Your task to perform on an android device: What's on the menu at Red Lobster? Image 0: 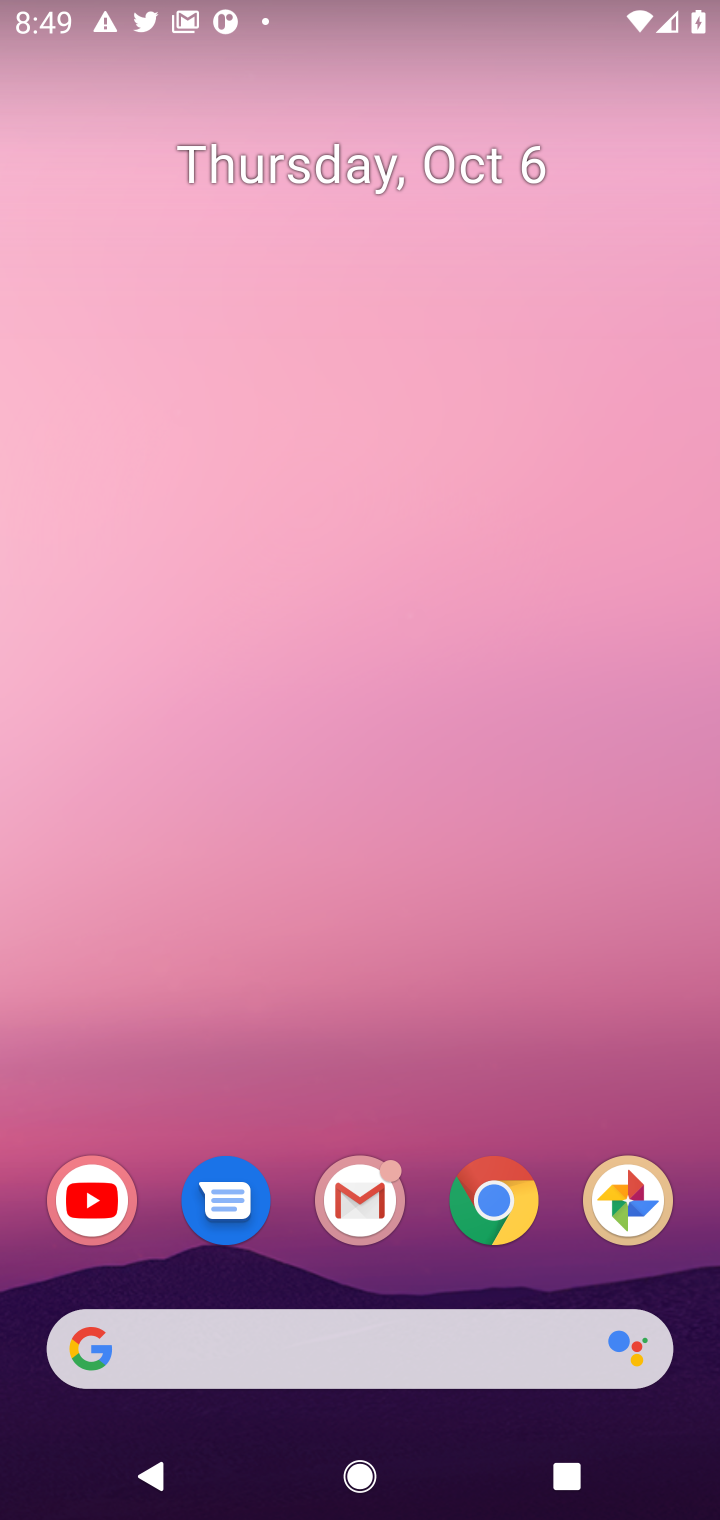
Step 0: click (501, 1203)
Your task to perform on an android device: What's on the menu at Red Lobster? Image 1: 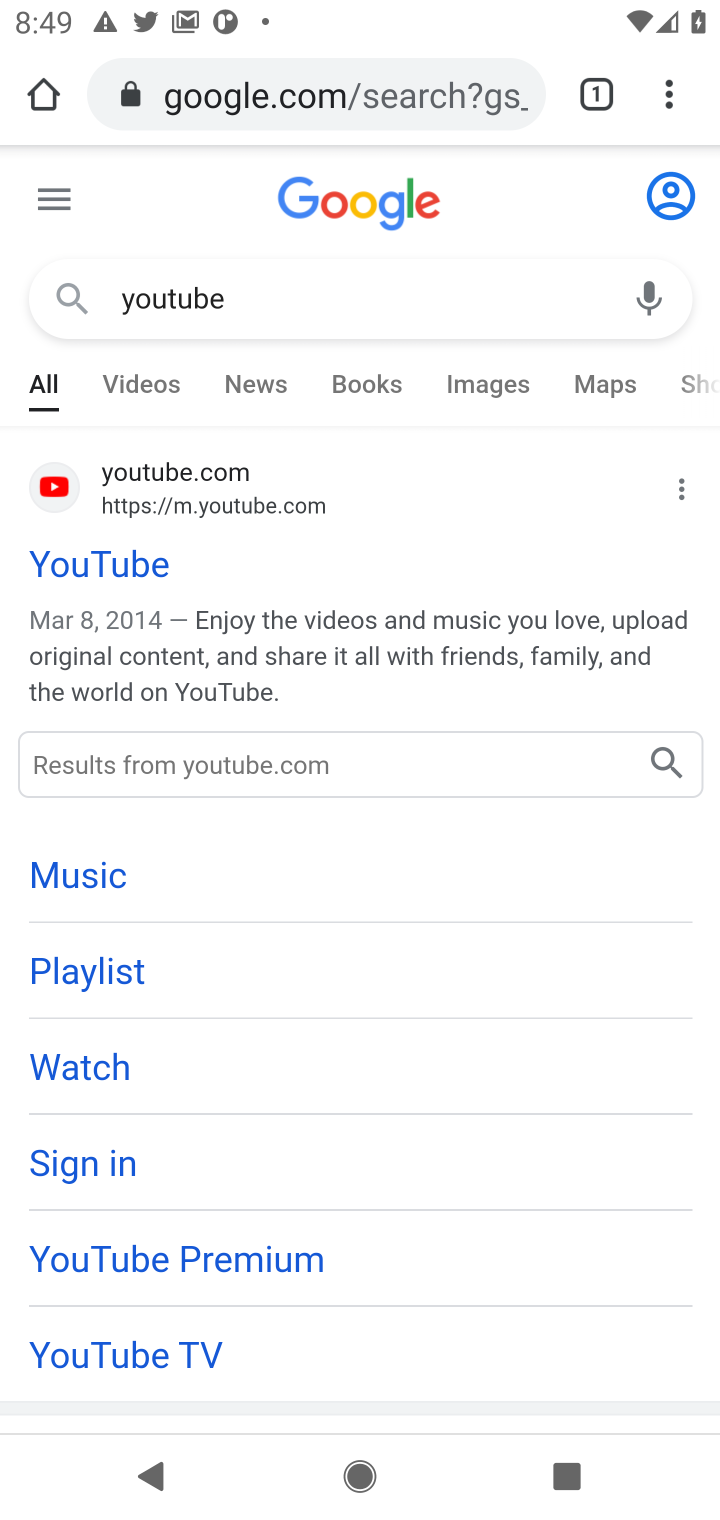
Step 1: click (382, 90)
Your task to perform on an android device: What's on the menu at Red Lobster? Image 2: 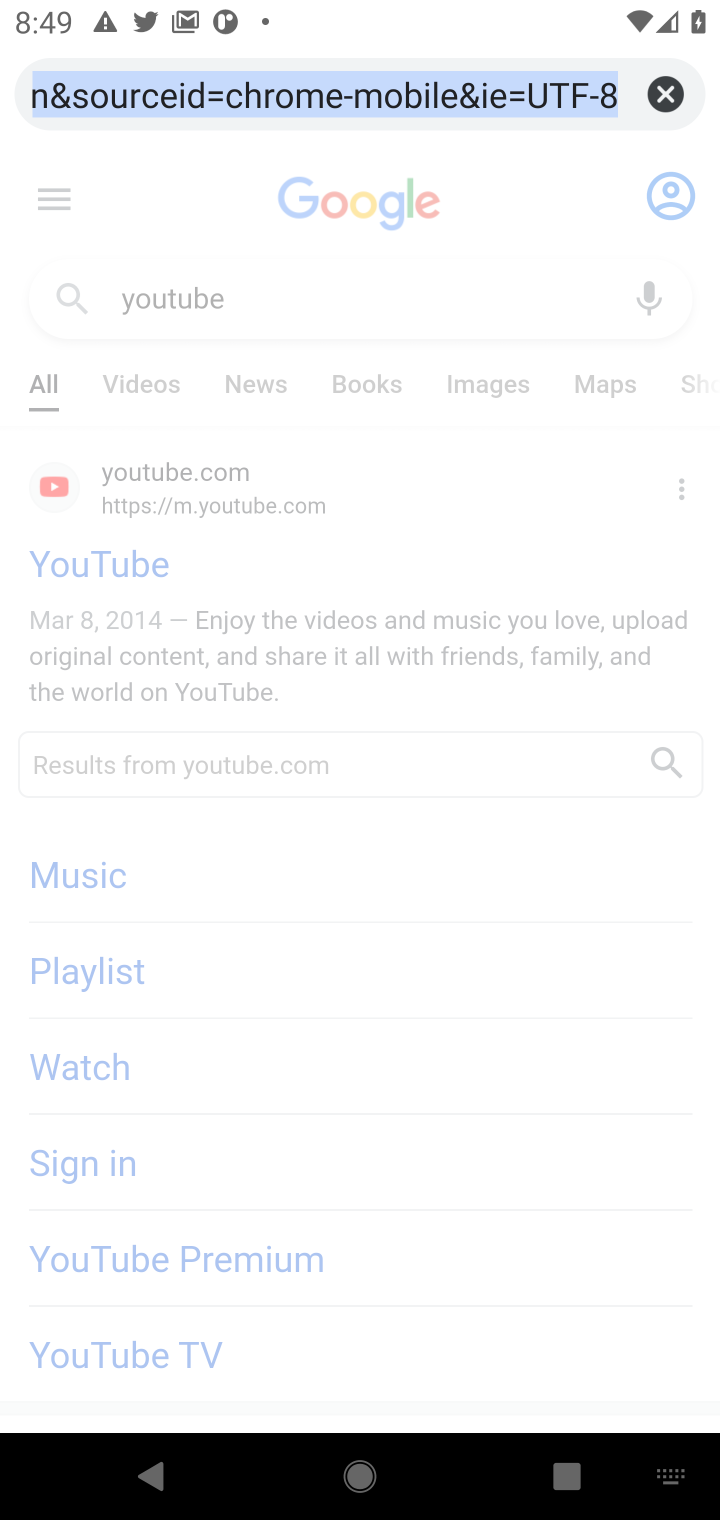
Step 2: type "red lobster"
Your task to perform on an android device: What's on the menu at Red Lobster? Image 3: 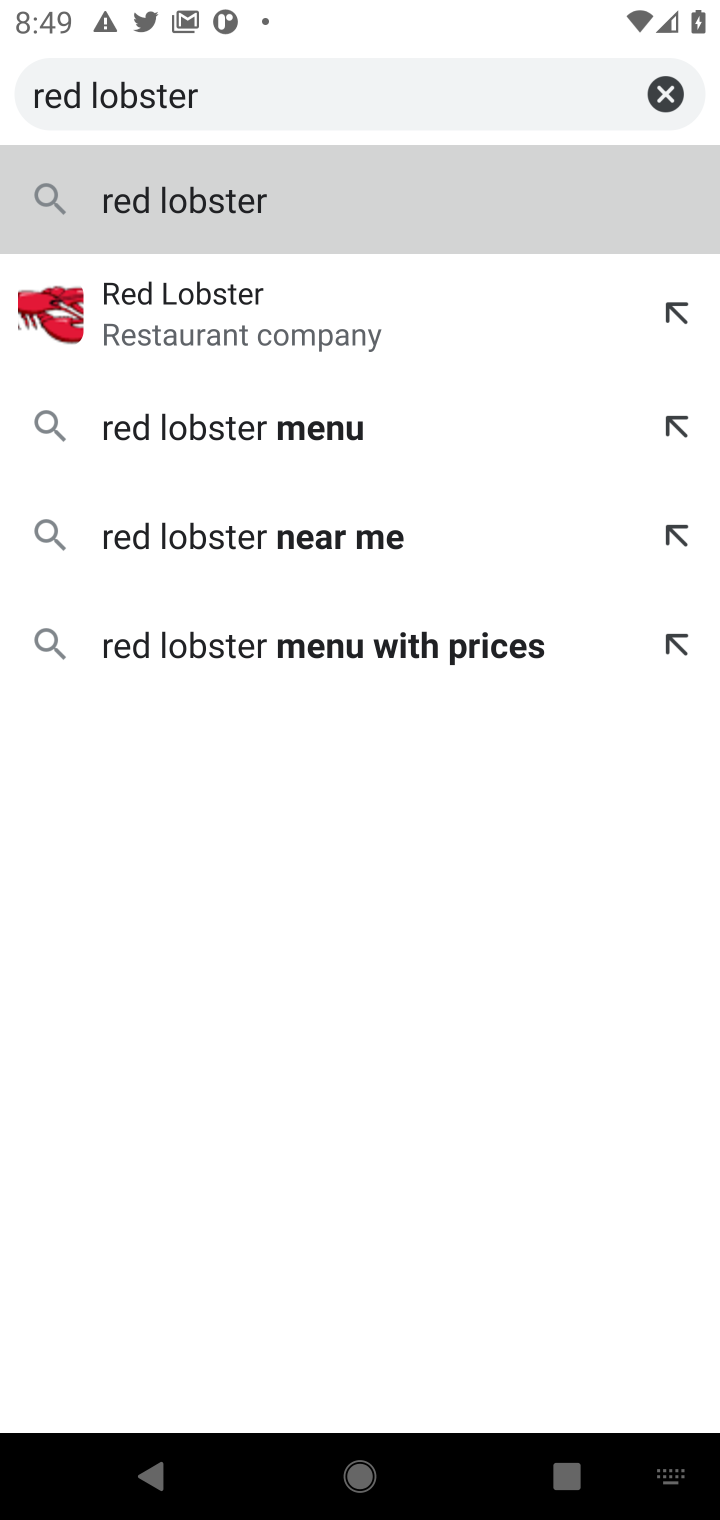
Step 3: click (269, 306)
Your task to perform on an android device: What's on the menu at Red Lobster? Image 4: 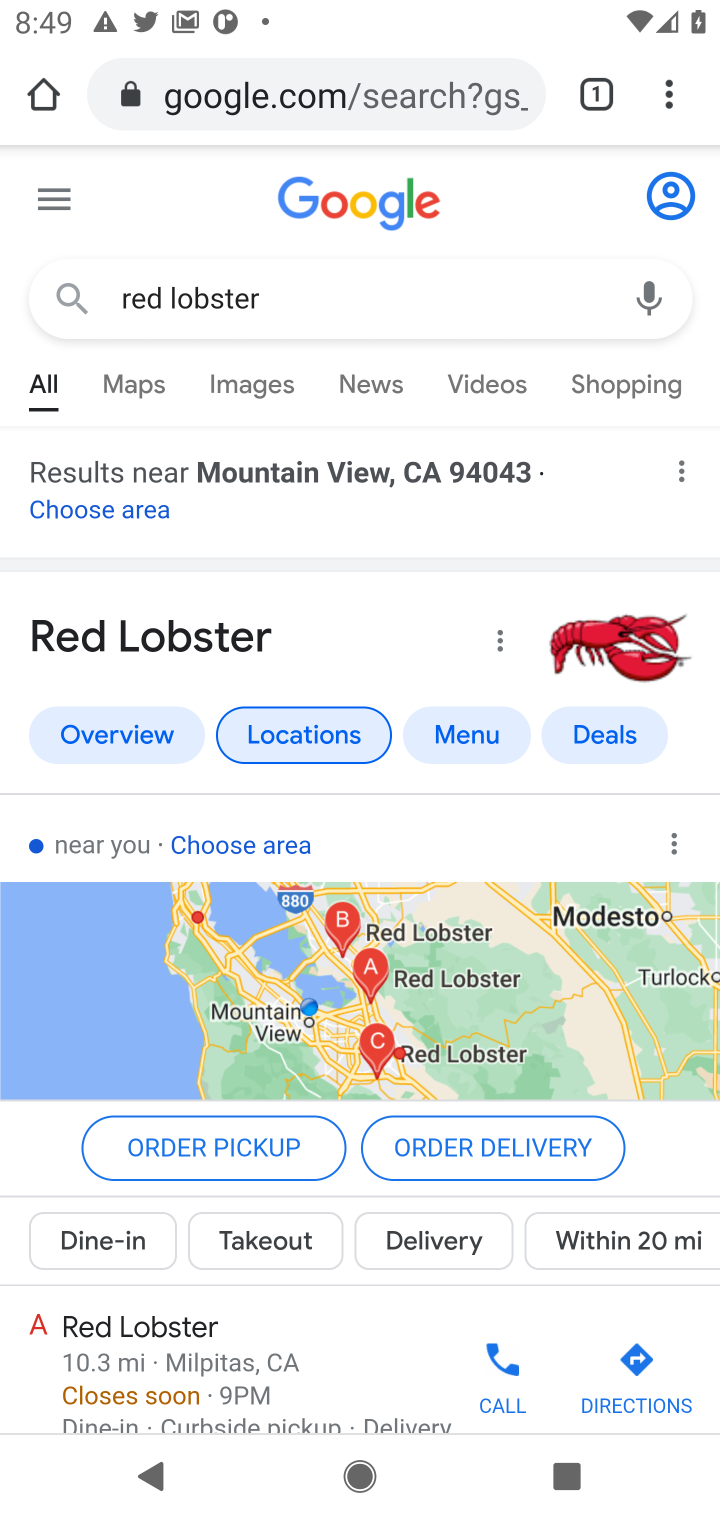
Step 4: click (191, 636)
Your task to perform on an android device: What's on the menu at Red Lobster? Image 5: 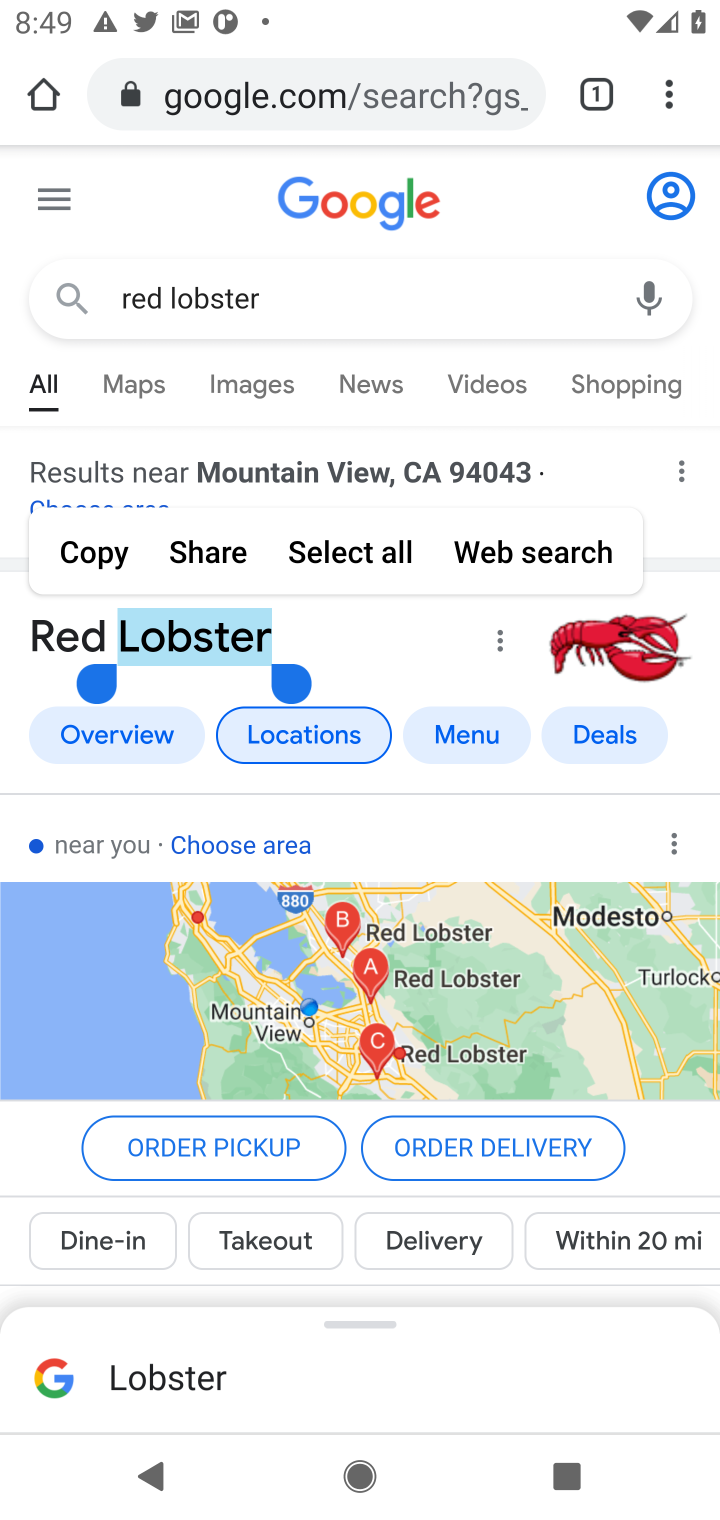
Step 5: click (452, 727)
Your task to perform on an android device: What's on the menu at Red Lobster? Image 6: 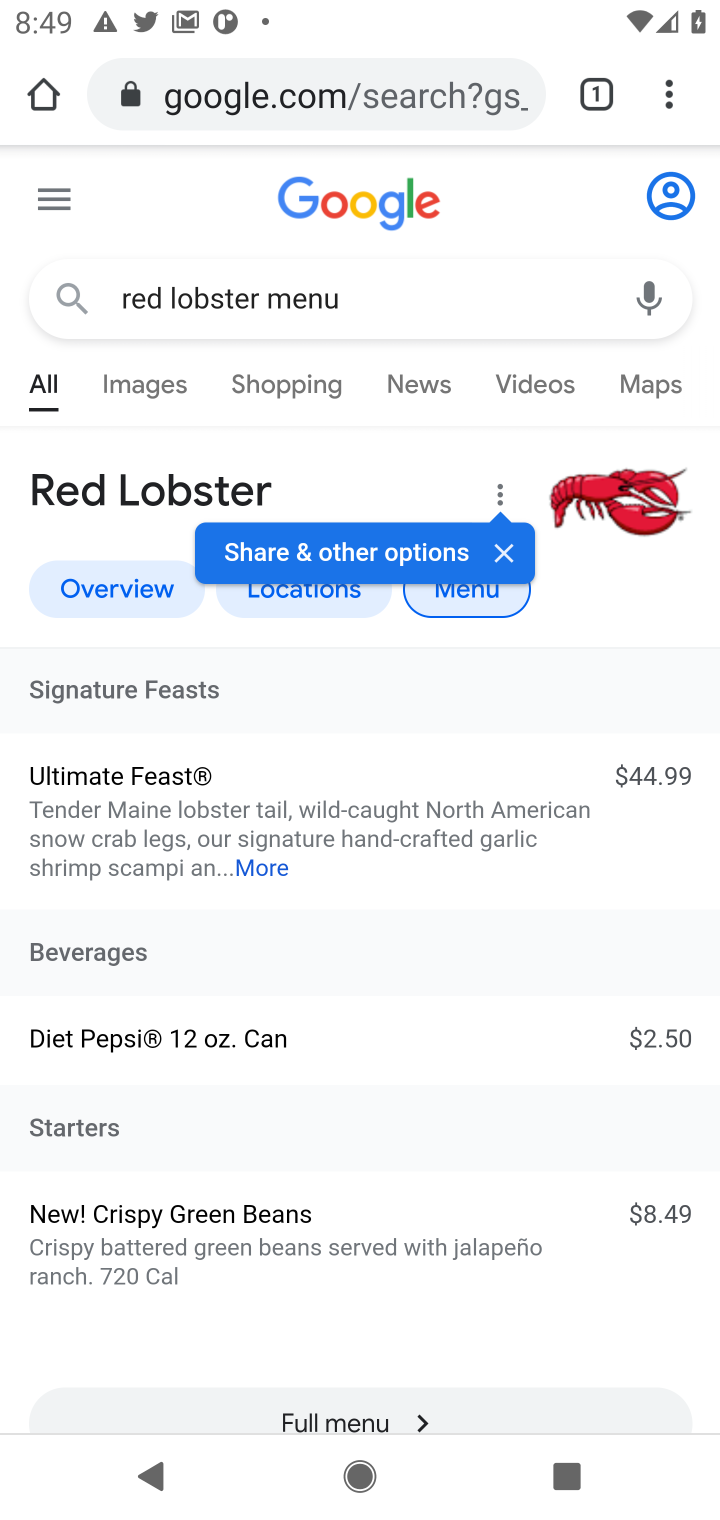
Step 6: drag from (221, 1140) to (204, 780)
Your task to perform on an android device: What's on the menu at Red Lobster? Image 7: 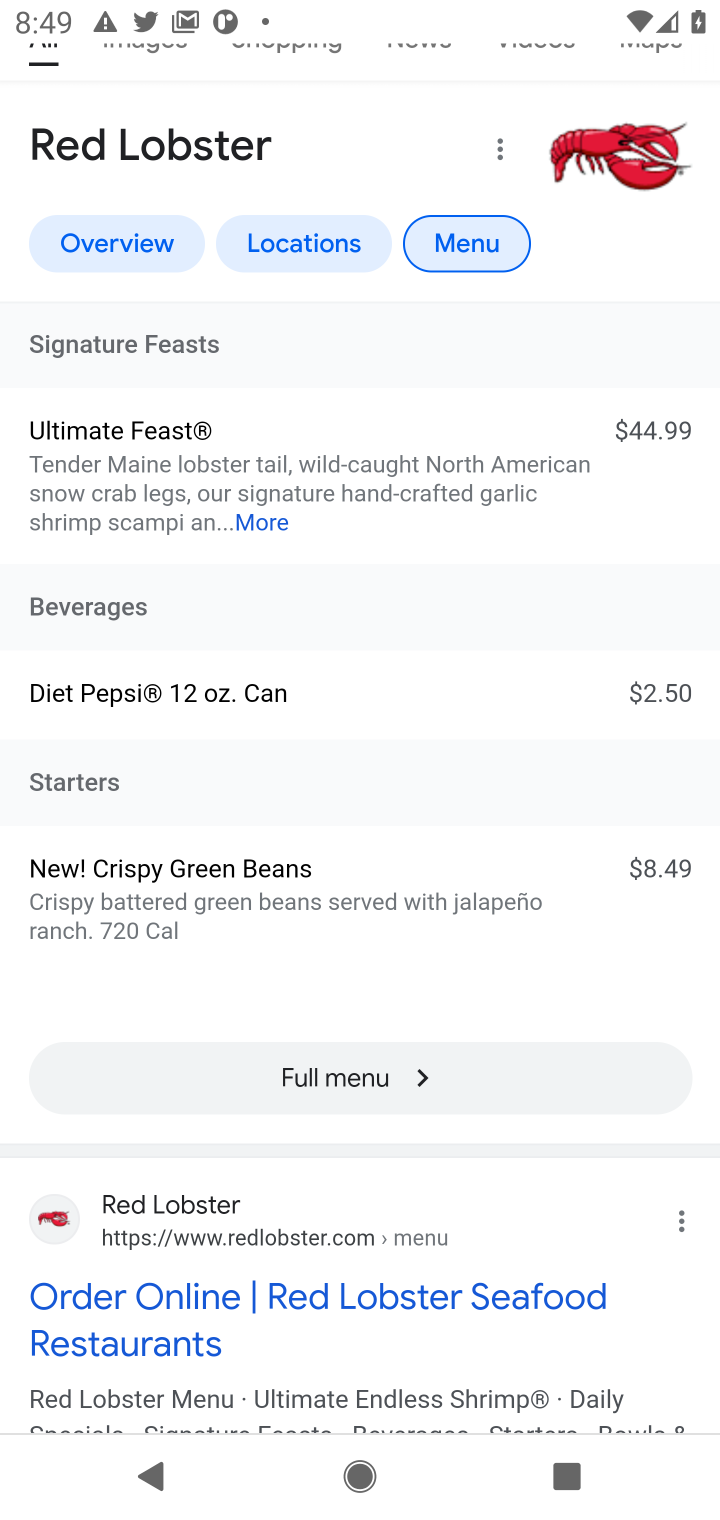
Step 7: click (468, 239)
Your task to perform on an android device: What's on the menu at Red Lobster? Image 8: 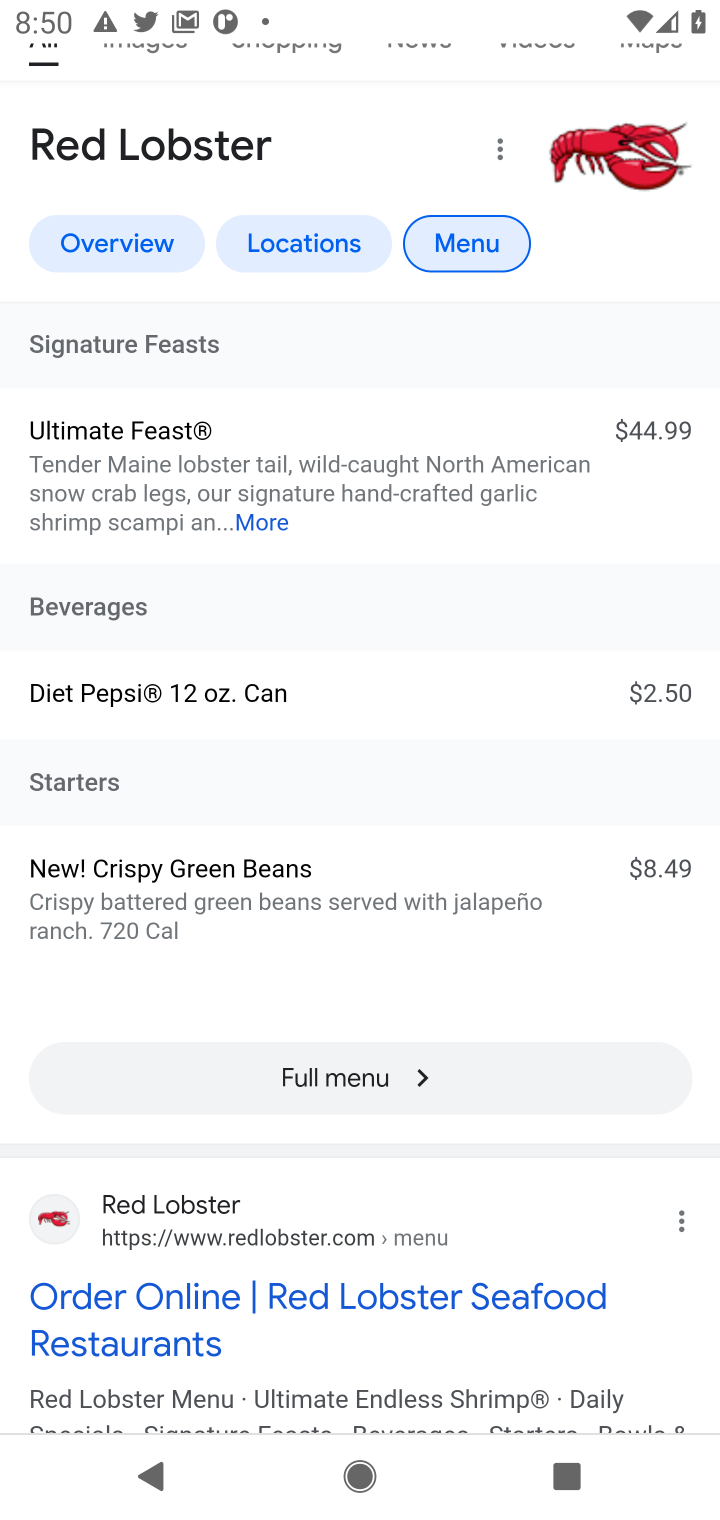
Step 8: click (458, 237)
Your task to perform on an android device: What's on the menu at Red Lobster? Image 9: 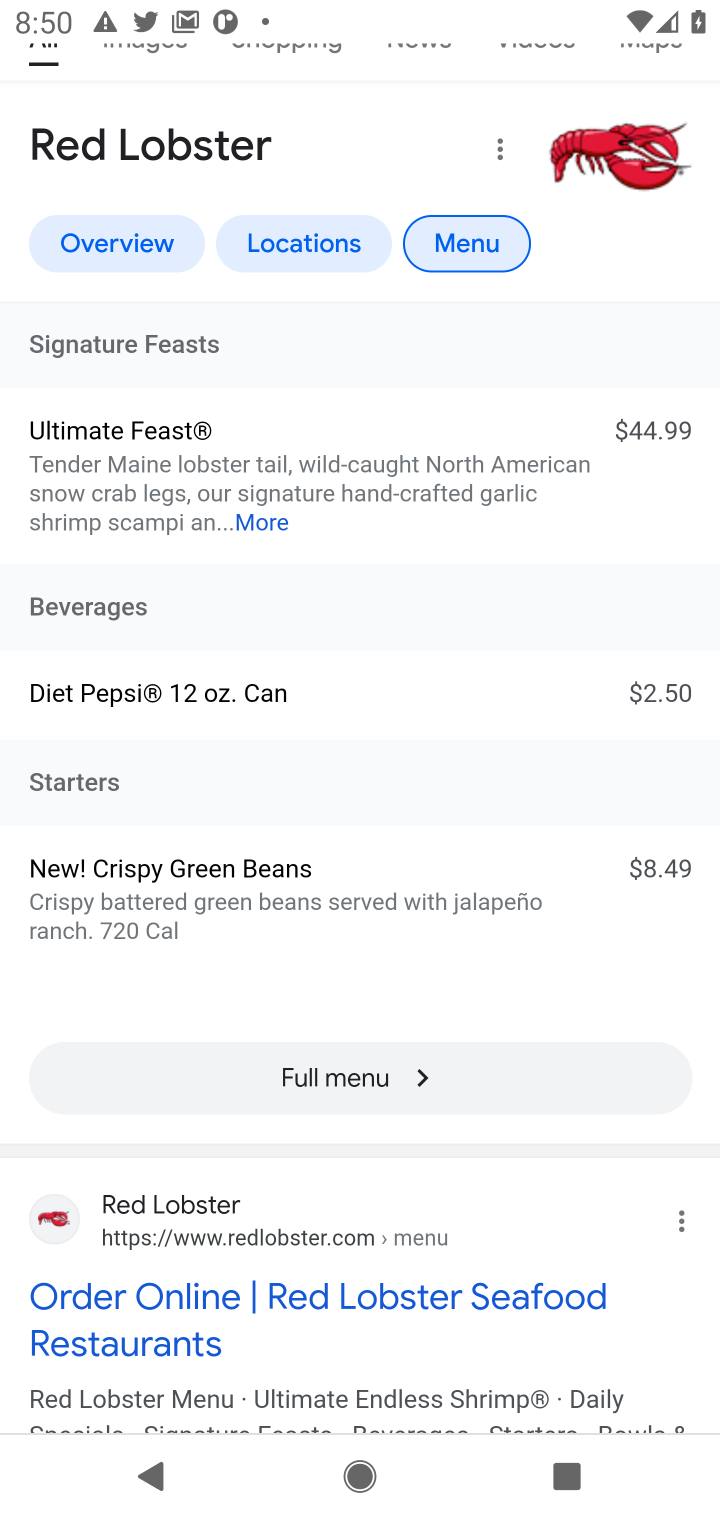
Step 9: click (453, 241)
Your task to perform on an android device: What's on the menu at Red Lobster? Image 10: 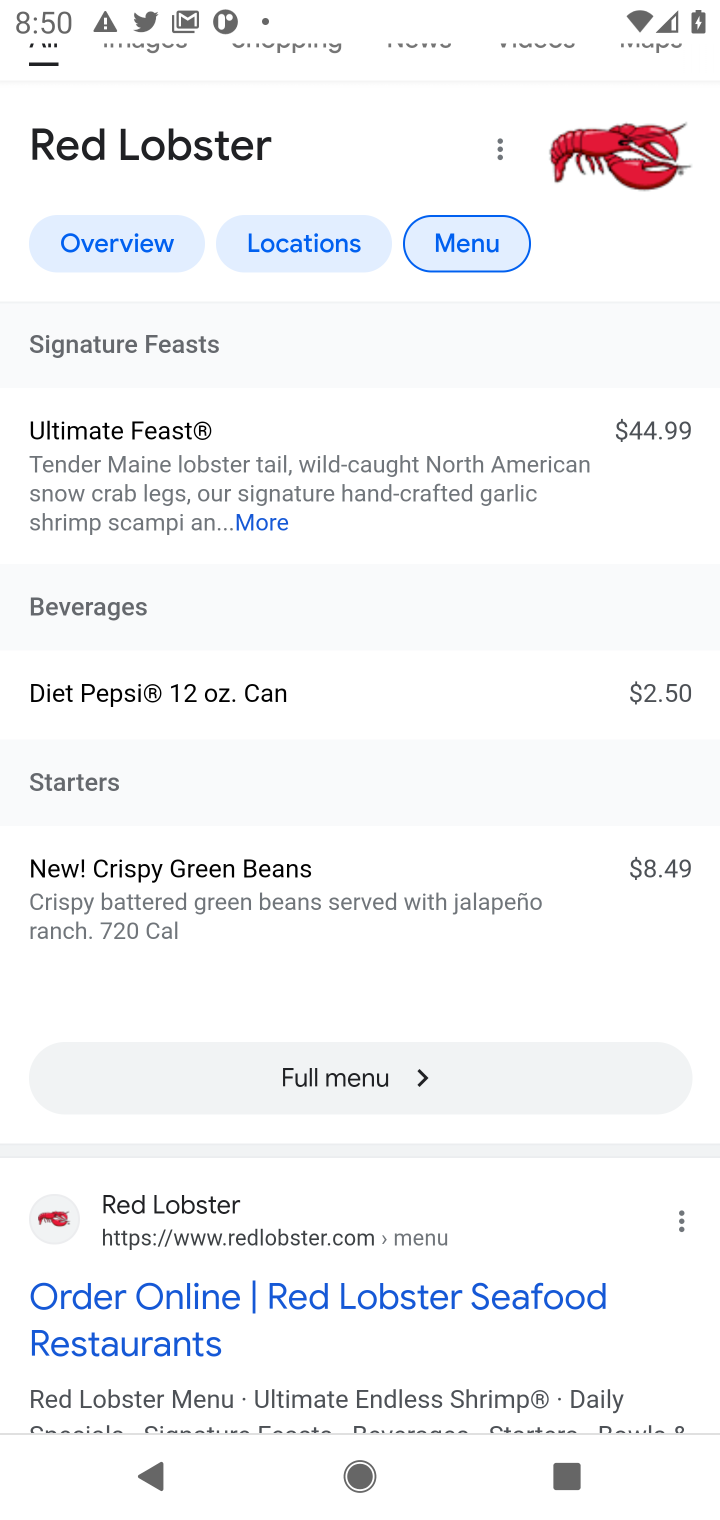
Step 10: drag from (541, 1127) to (557, 594)
Your task to perform on an android device: What's on the menu at Red Lobster? Image 11: 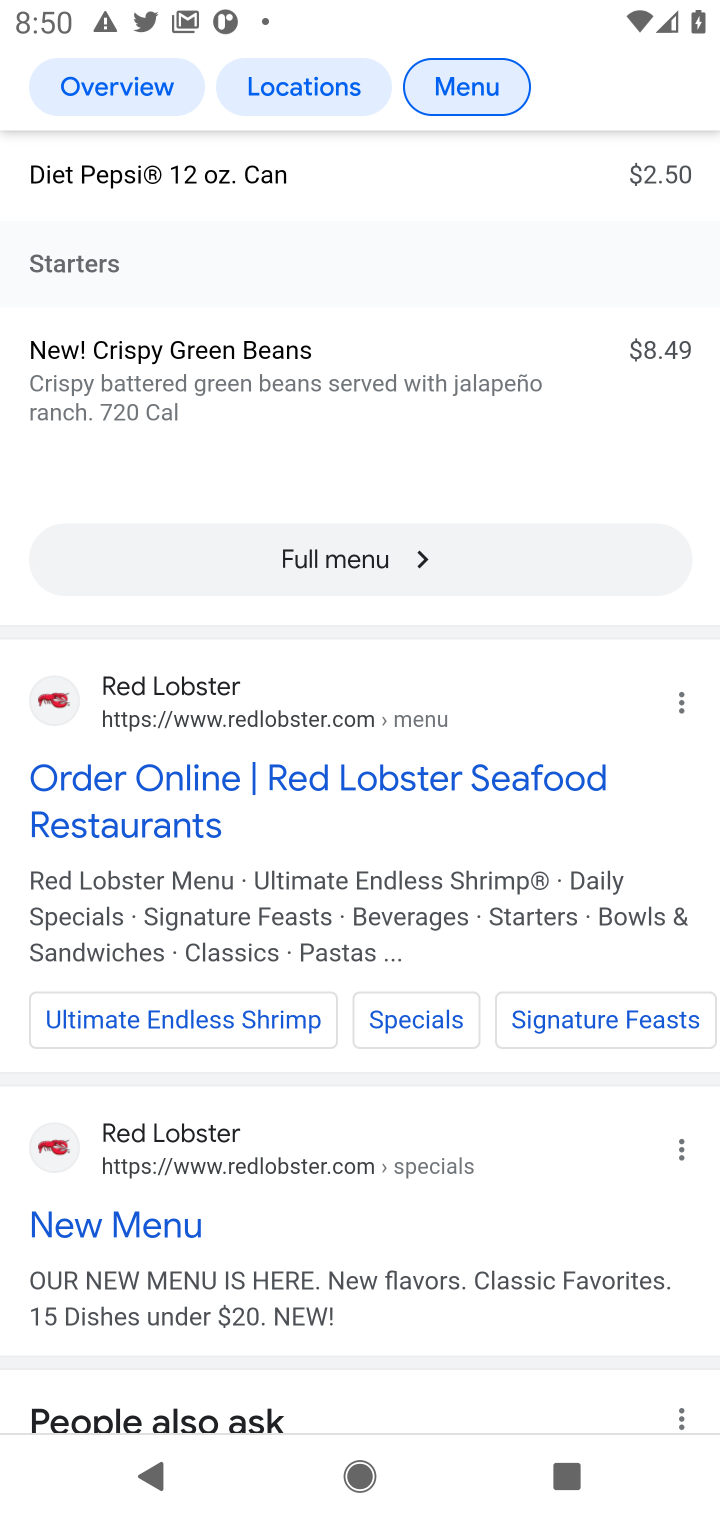
Step 11: click (356, 1012)
Your task to perform on an android device: What's on the menu at Red Lobster? Image 12: 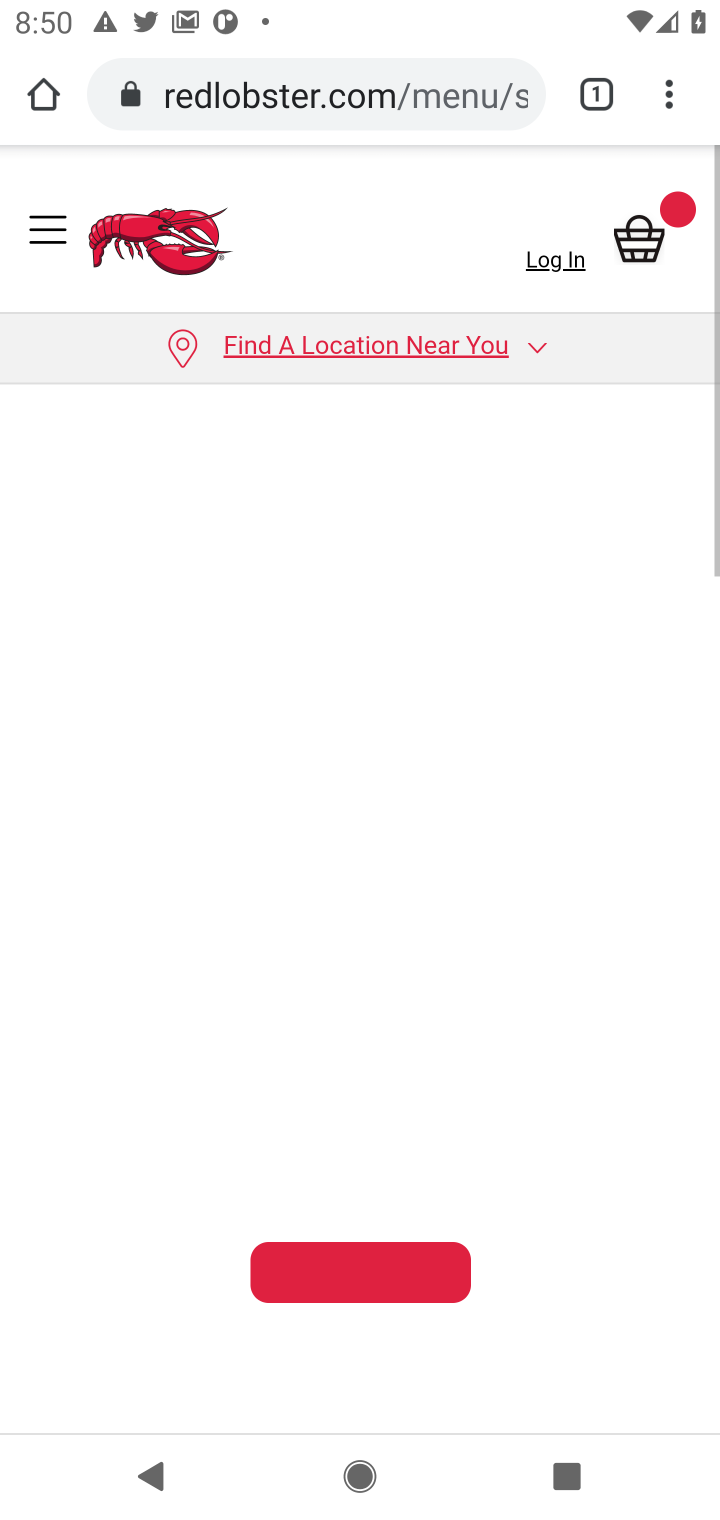
Step 12: click (70, 1227)
Your task to perform on an android device: What's on the menu at Red Lobster? Image 13: 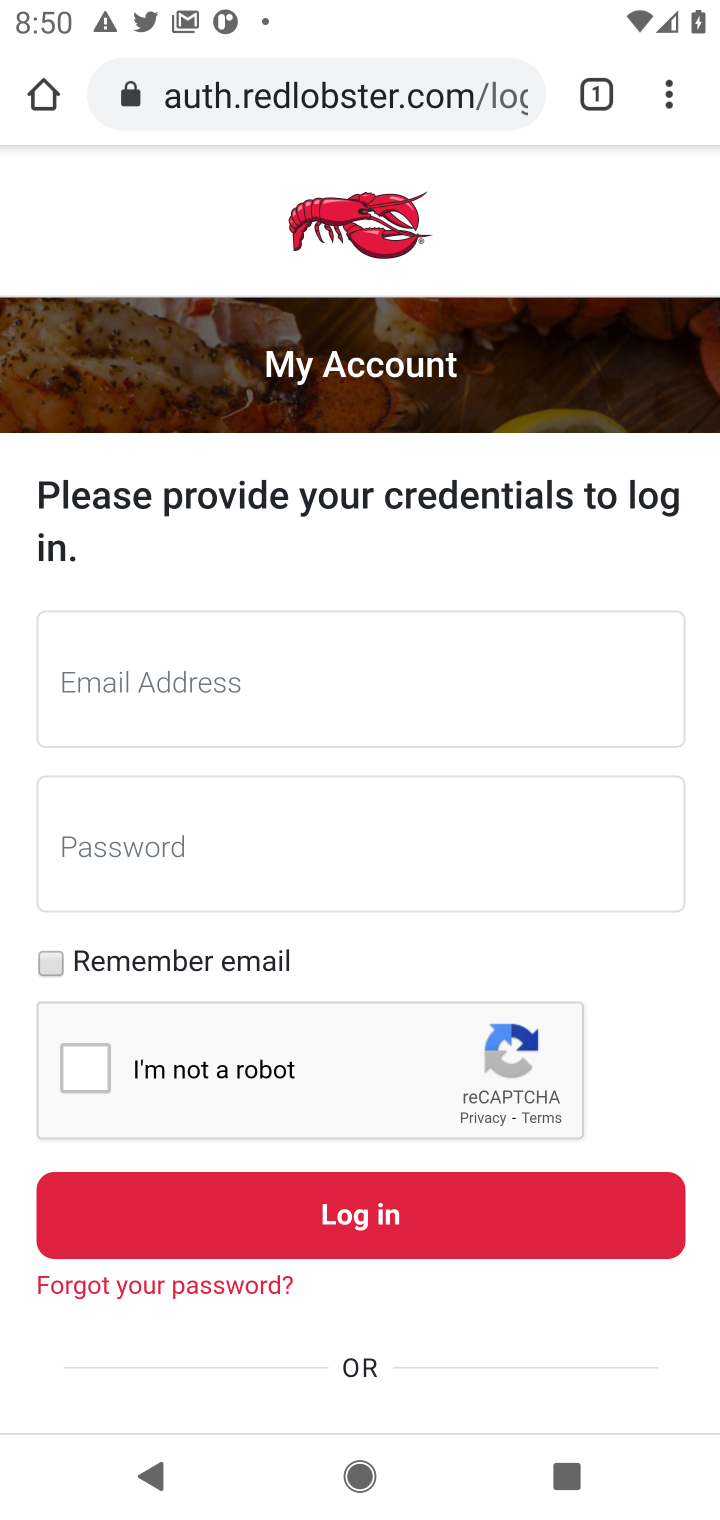
Step 13: drag from (486, 793) to (510, 230)
Your task to perform on an android device: What's on the menu at Red Lobster? Image 14: 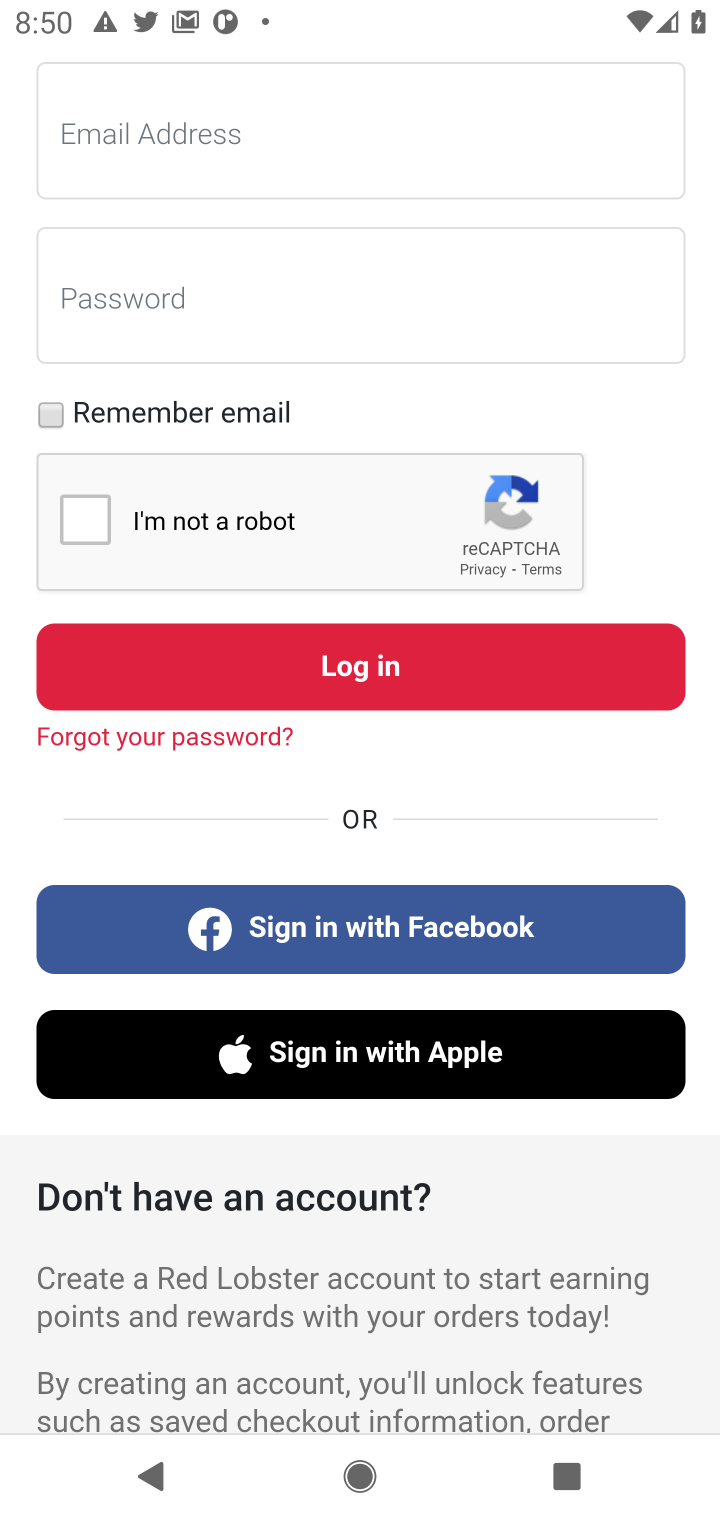
Step 14: drag from (464, 1111) to (493, 534)
Your task to perform on an android device: What's on the menu at Red Lobster? Image 15: 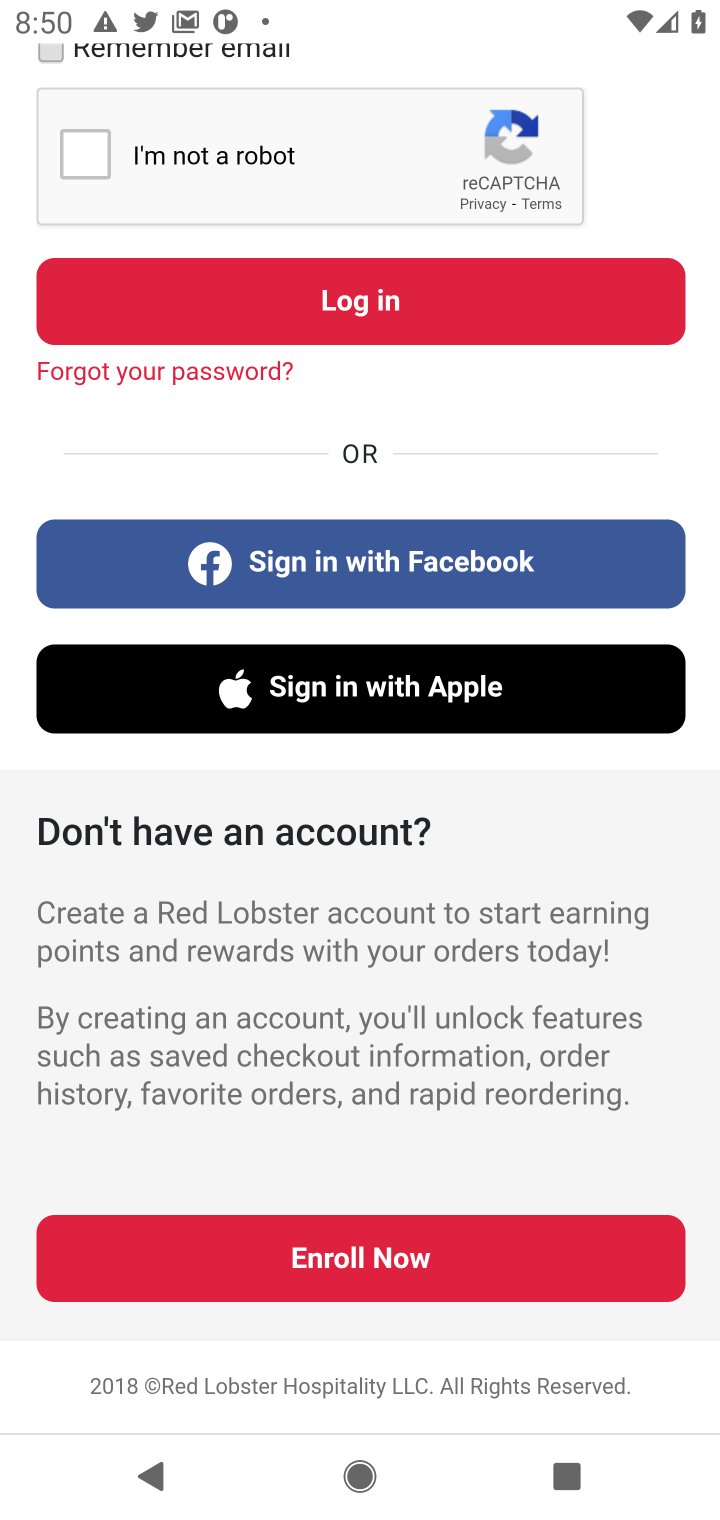
Step 15: press back button
Your task to perform on an android device: What's on the menu at Red Lobster? Image 16: 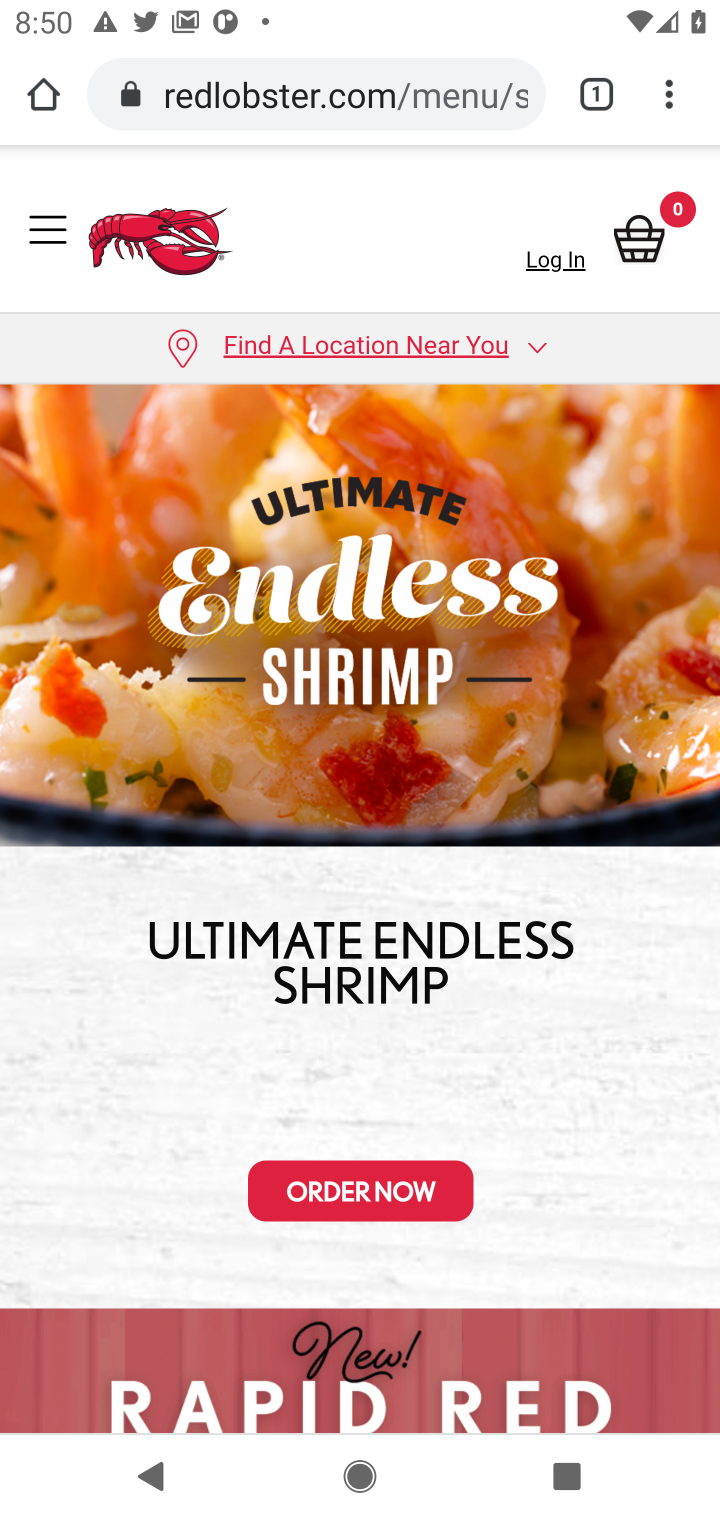
Step 16: drag from (400, 1062) to (507, 431)
Your task to perform on an android device: What's on the menu at Red Lobster? Image 17: 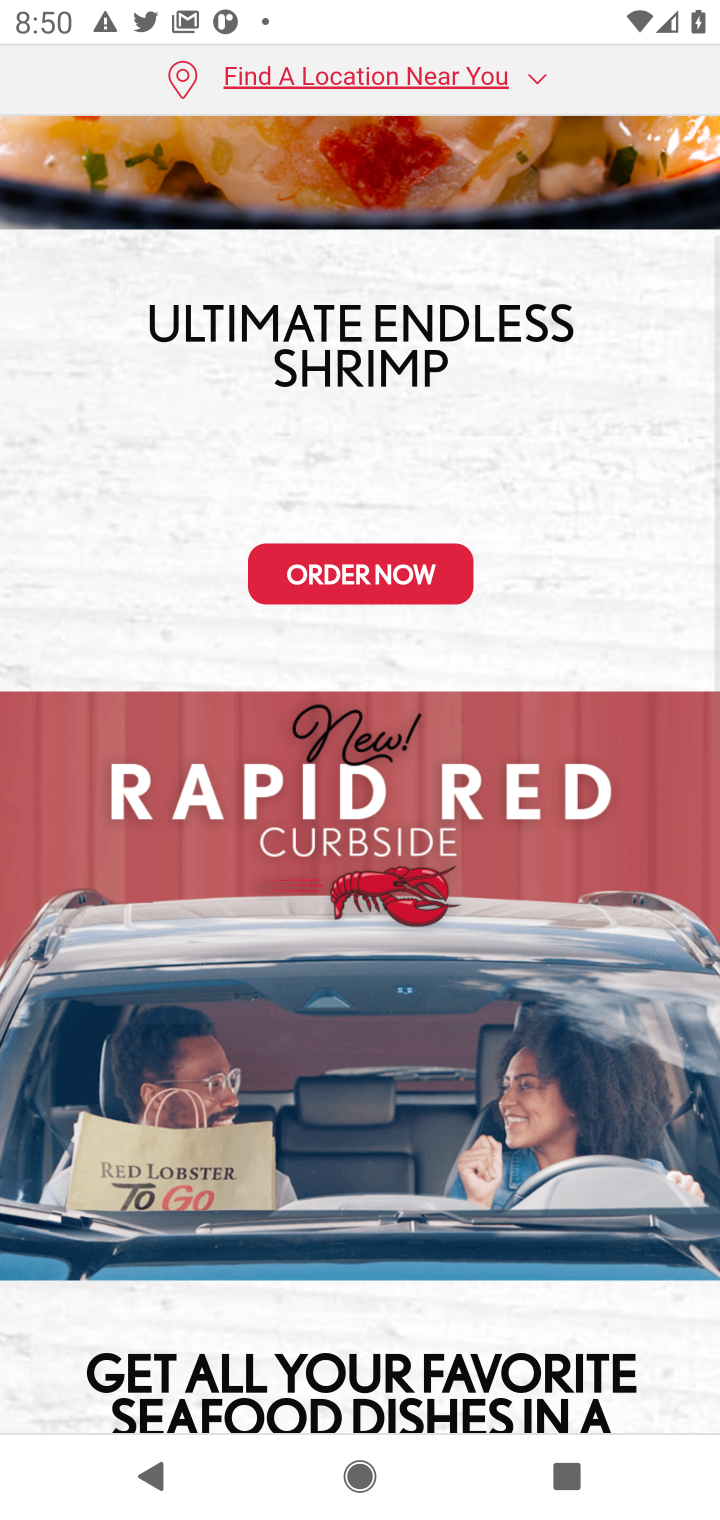
Step 17: drag from (594, 1024) to (587, 532)
Your task to perform on an android device: What's on the menu at Red Lobster? Image 18: 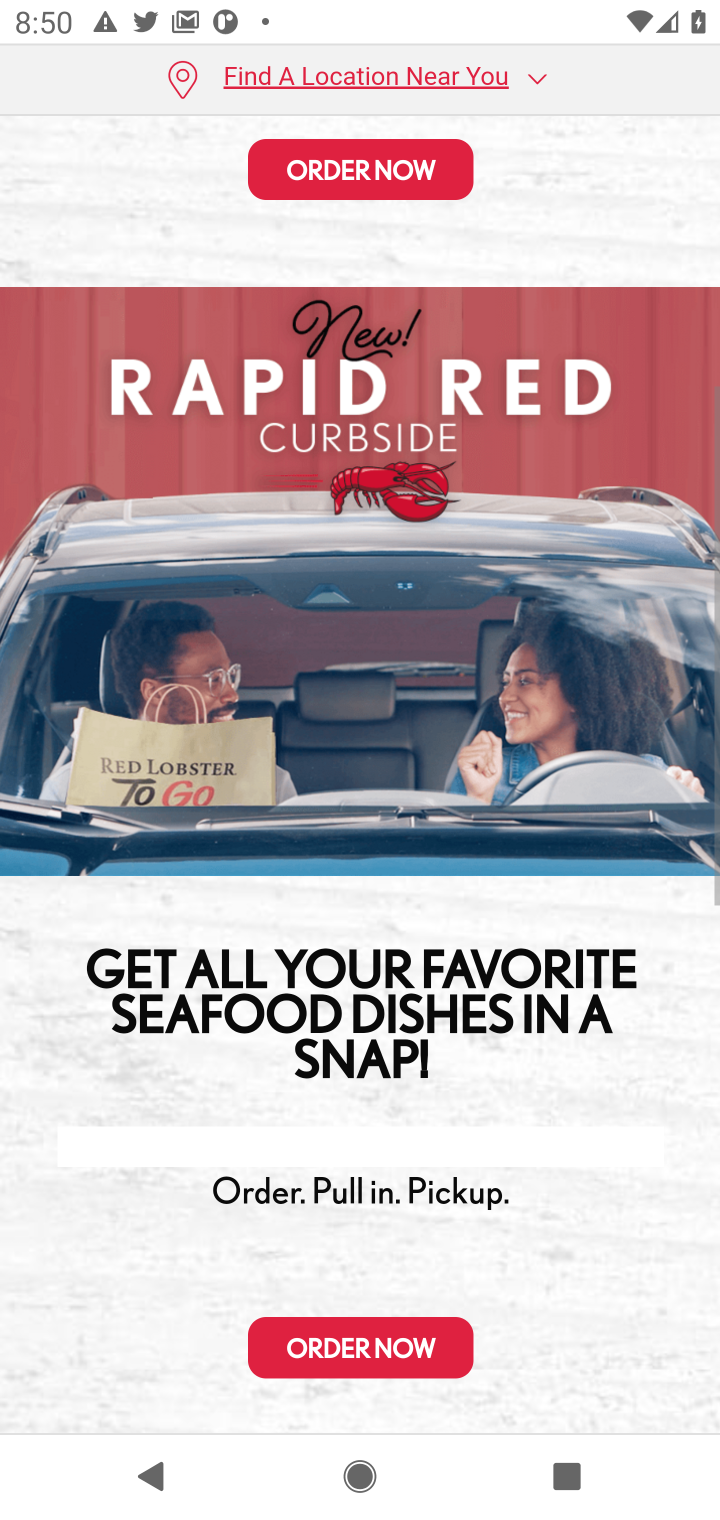
Step 18: drag from (355, 1188) to (390, 547)
Your task to perform on an android device: What's on the menu at Red Lobster? Image 19: 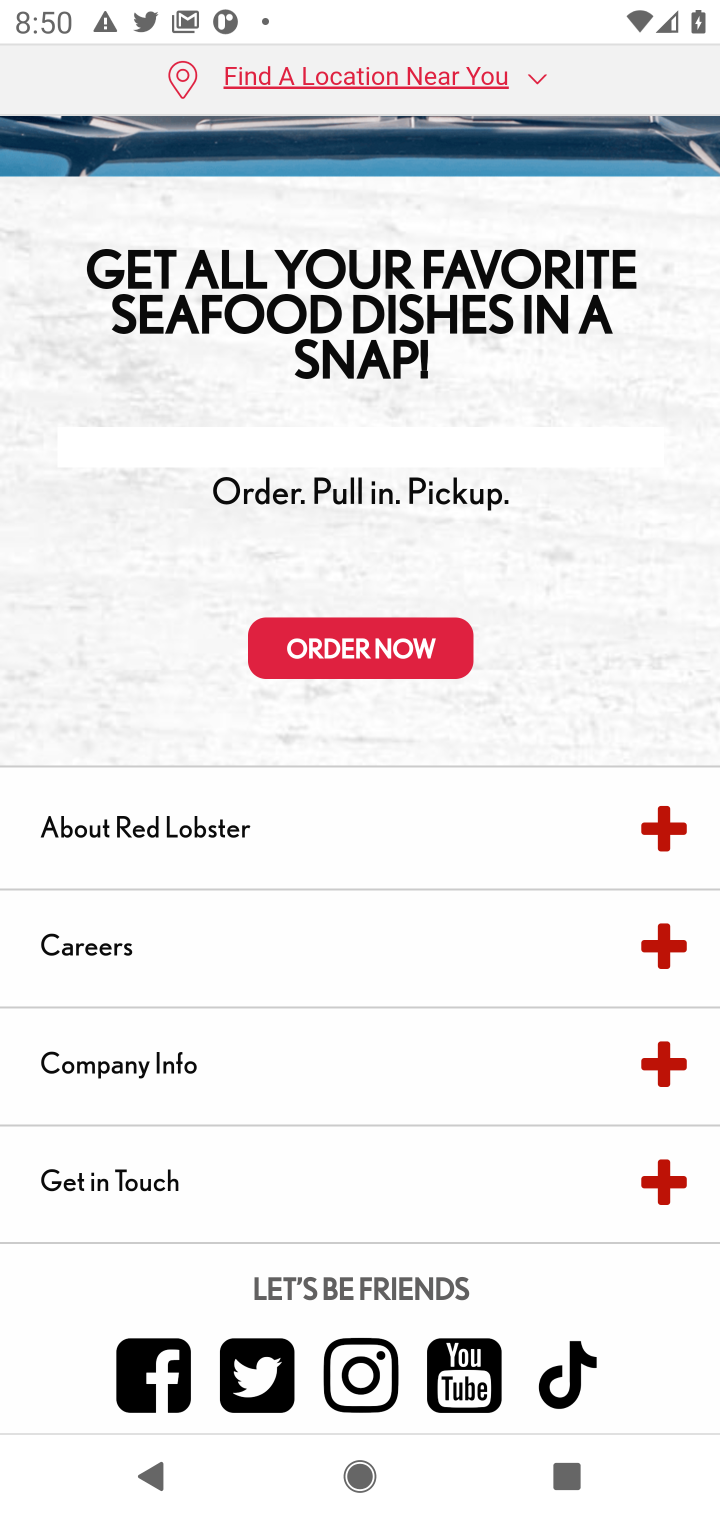
Step 19: drag from (545, 1290) to (545, 517)
Your task to perform on an android device: What's on the menu at Red Lobster? Image 20: 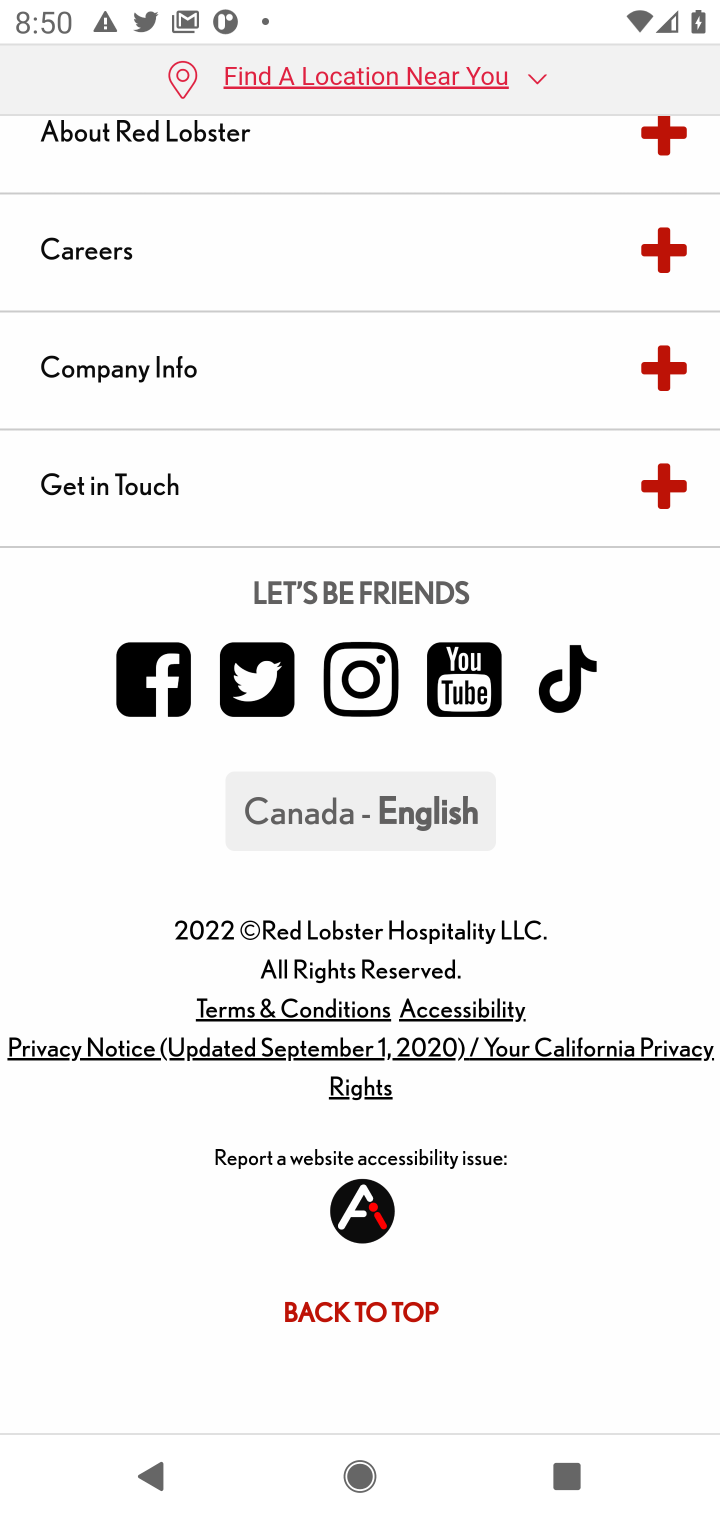
Step 20: drag from (488, 804) to (450, 1430)
Your task to perform on an android device: What's on the menu at Red Lobster? Image 21: 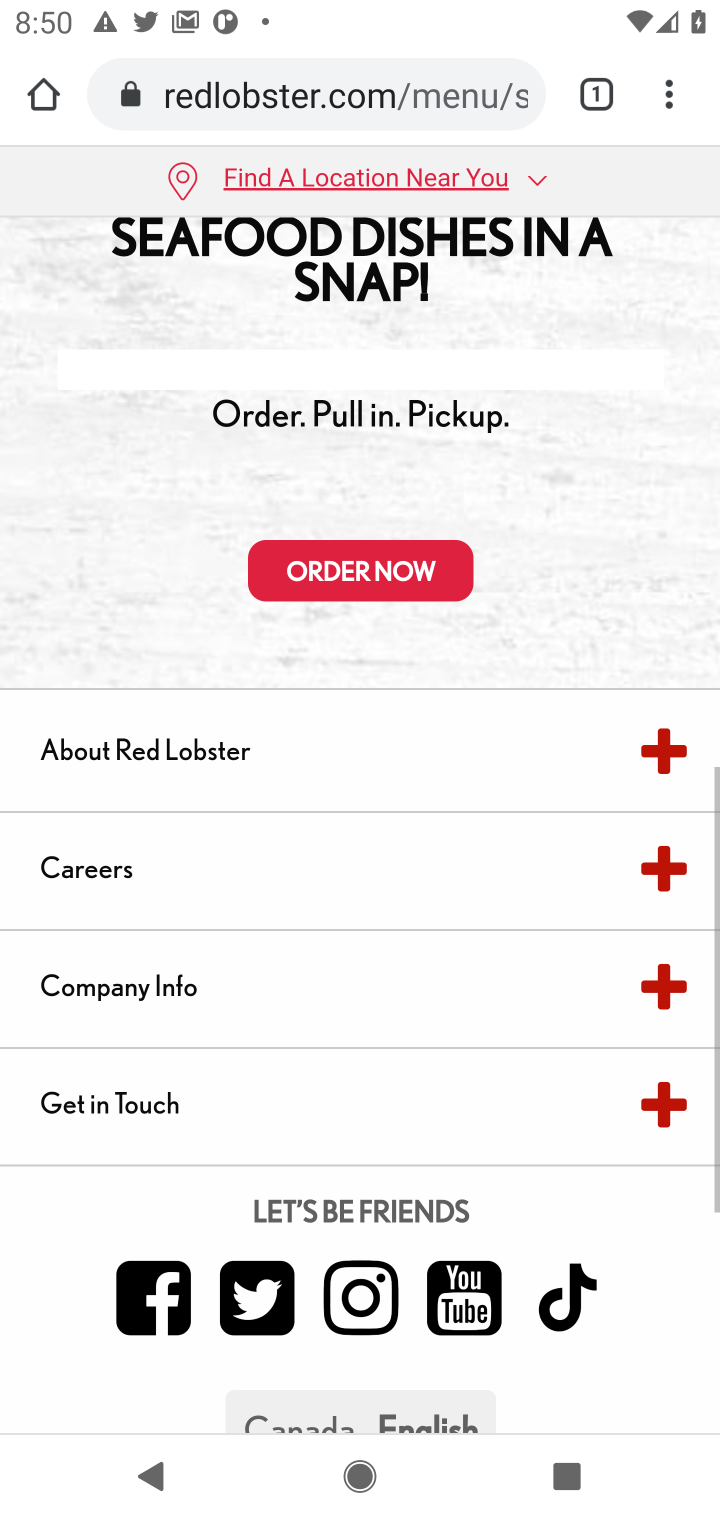
Step 21: drag from (414, 534) to (488, 1491)
Your task to perform on an android device: What's on the menu at Red Lobster? Image 22: 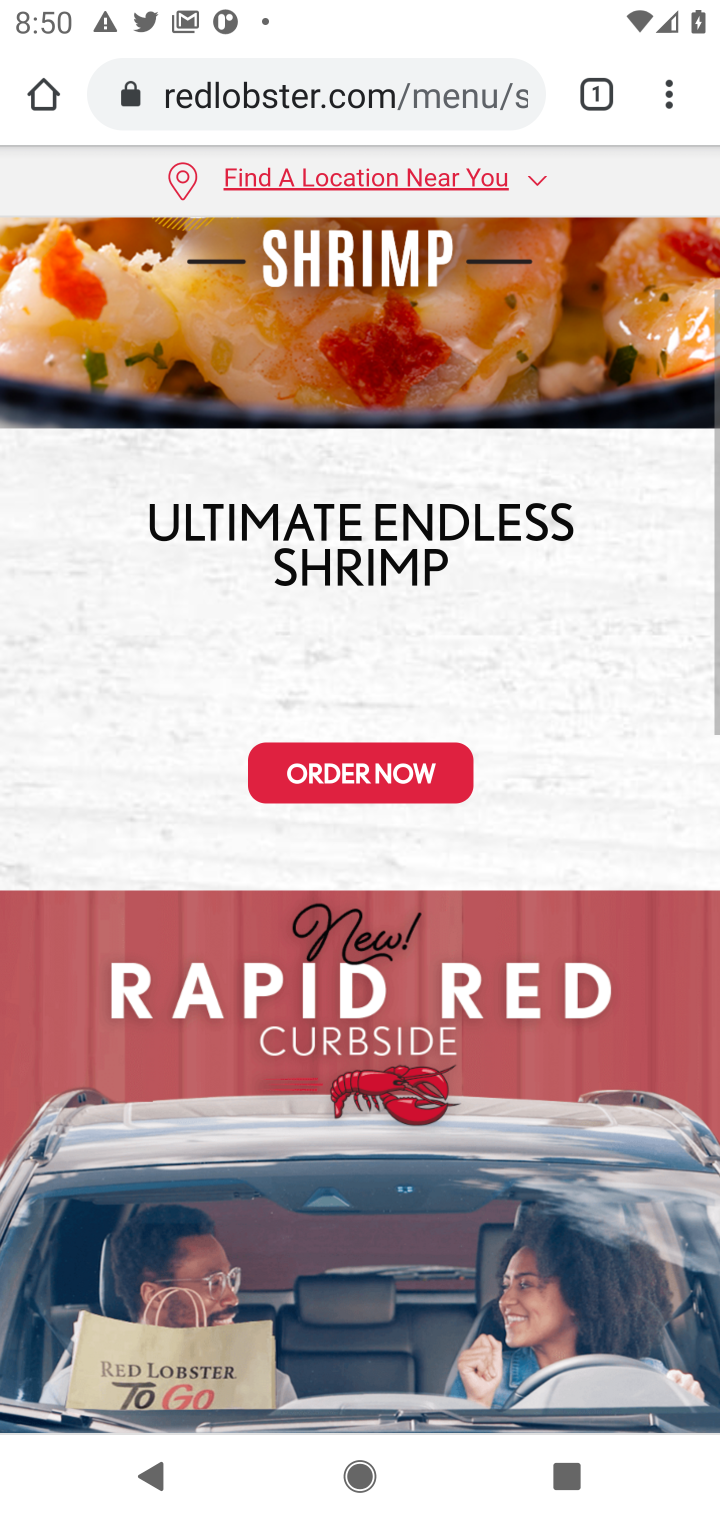
Step 22: drag from (224, 679) to (195, 1509)
Your task to perform on an android device: What's on the menu at Red Lobster? Image 23: 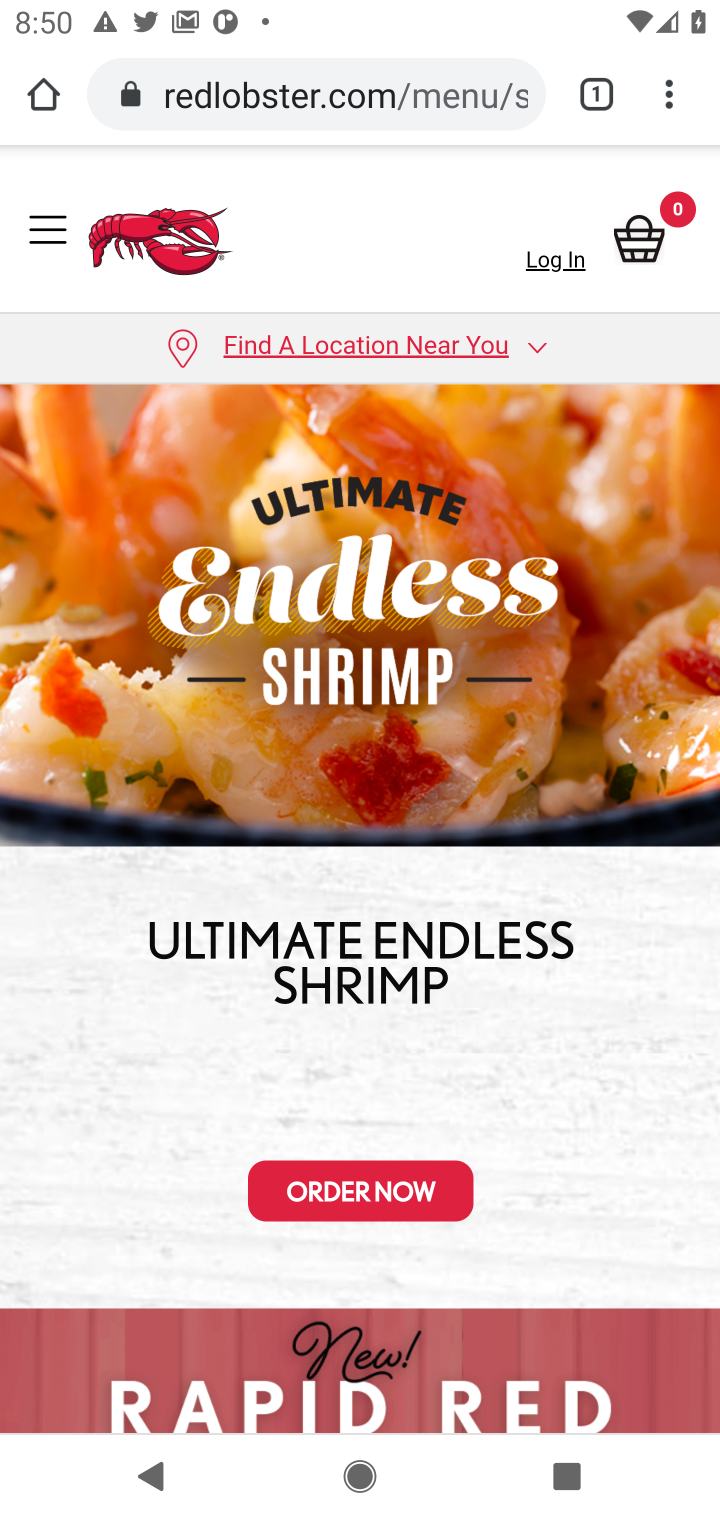
Step 23: drag from (493, 951) to (425, 1195)
Your task to perform on an android device: What's on the menu at Red Lobster? Image 24: 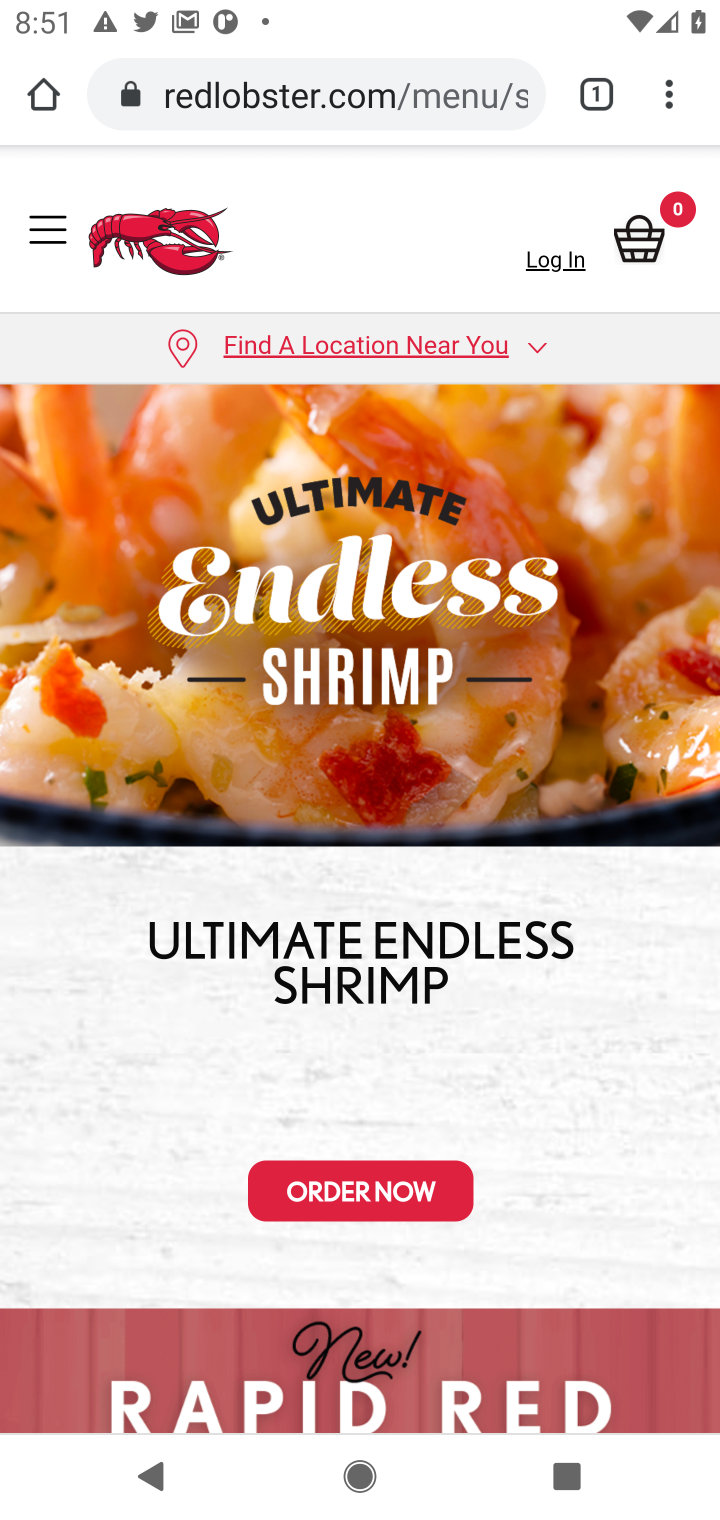
Step 24: click (364, 1190)
Your task to perform on an android device: What's on the menu at Red Lobster? Image 25: 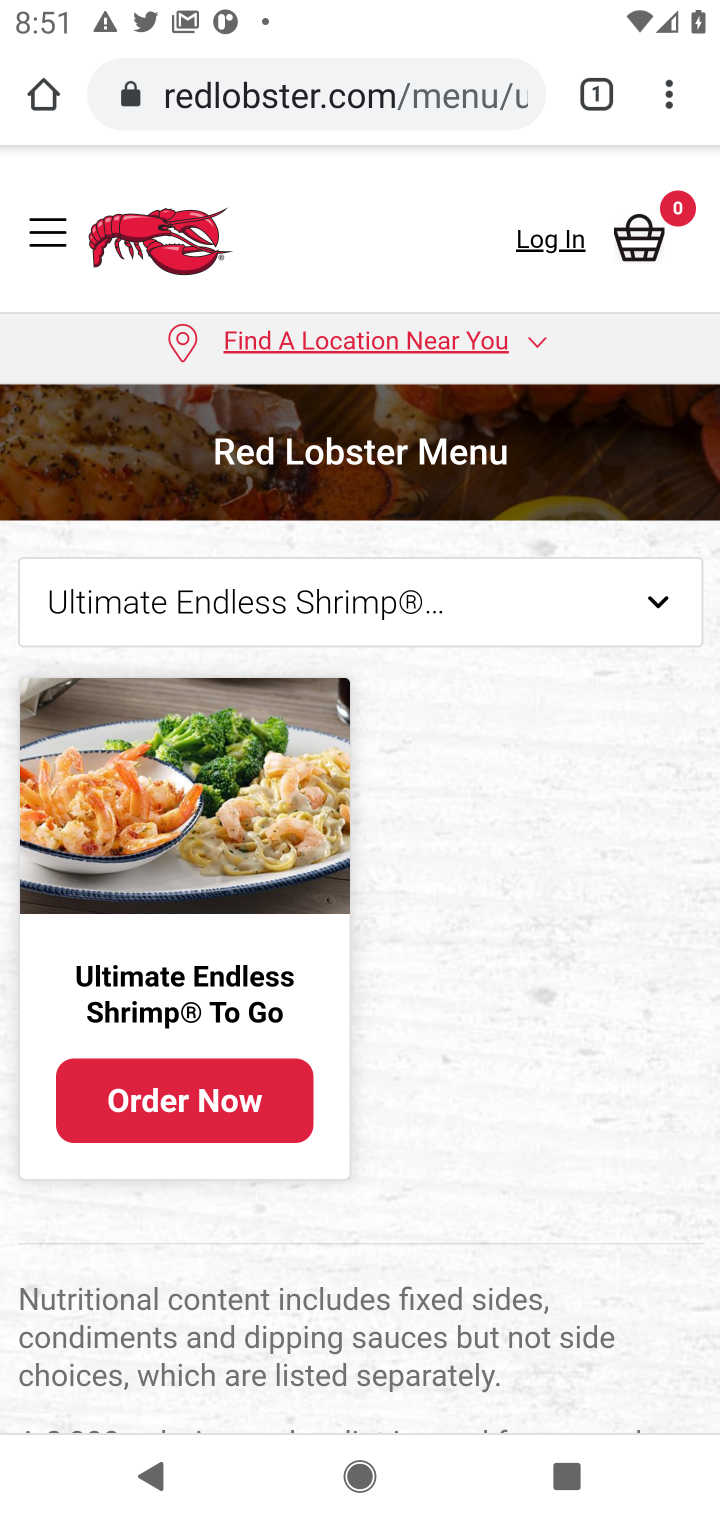
Step 25: drag from (458, 993) to (177, 879)
Your task to perform on an android device: What's on the menu at Red Lobster? Image 26: 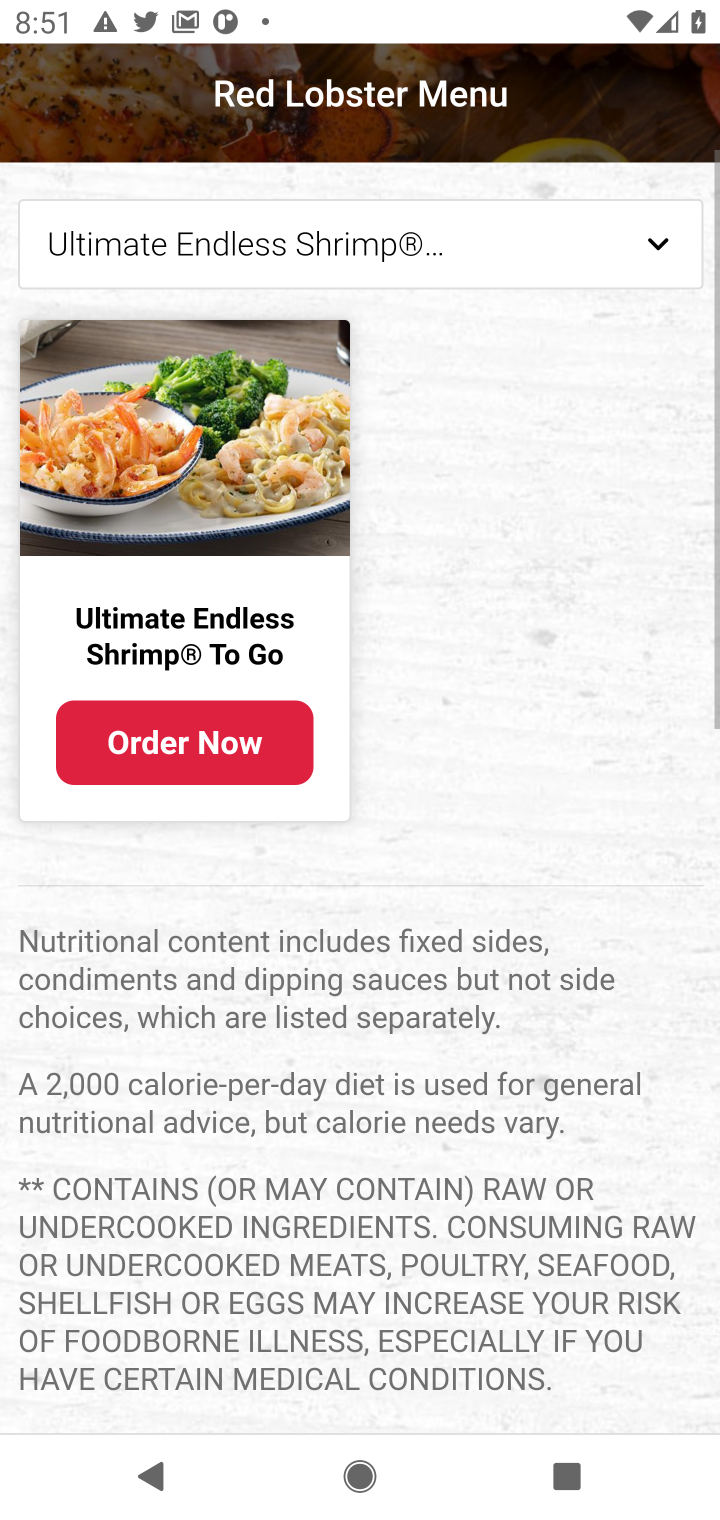
Step 26: drag from (293, 1078) to (388, 609)
Your task to perform on an android device: What's on the menu at Red Lobster? Image 27: 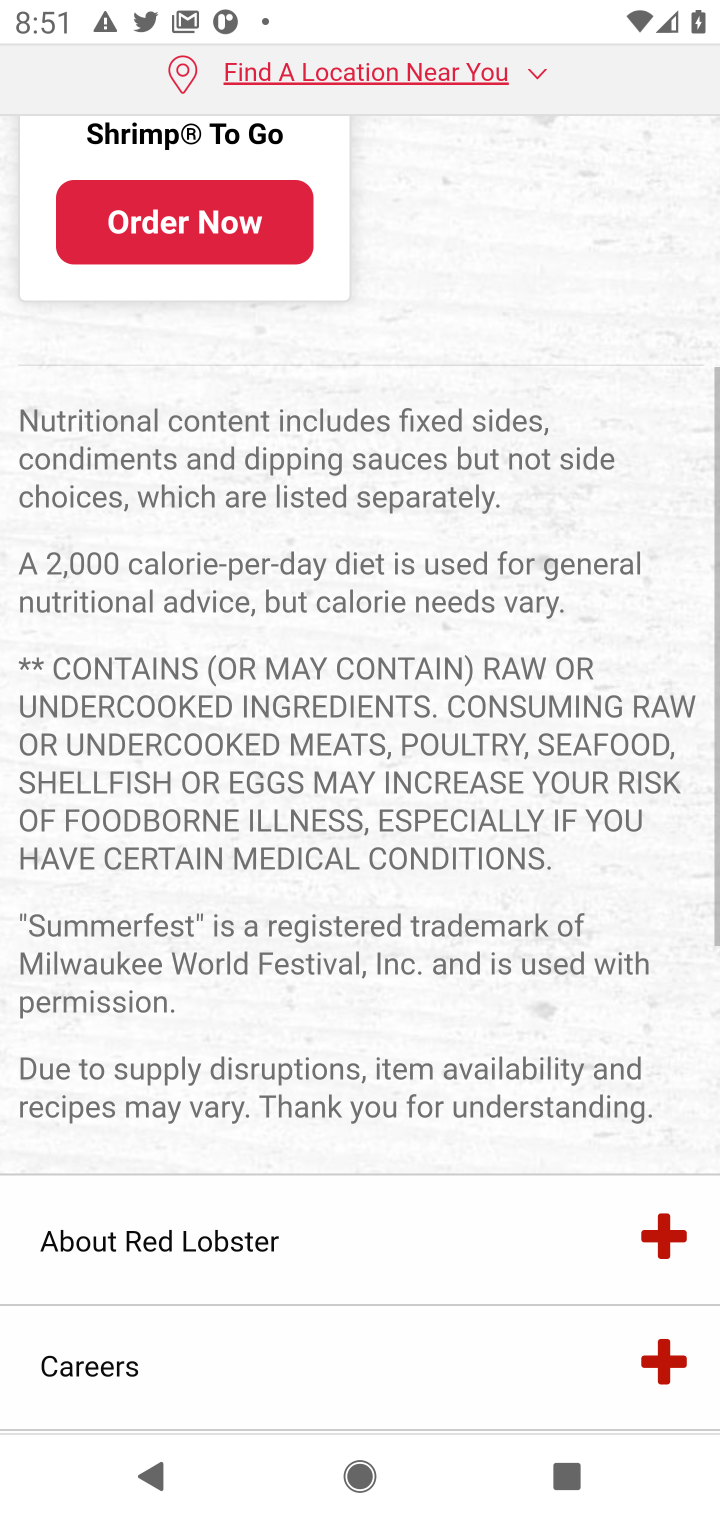
Step 27: drag from (341, 726) to (357, 1505)
Your task to perform on an android device: What's on the menu at Red Lobster? Image 28: 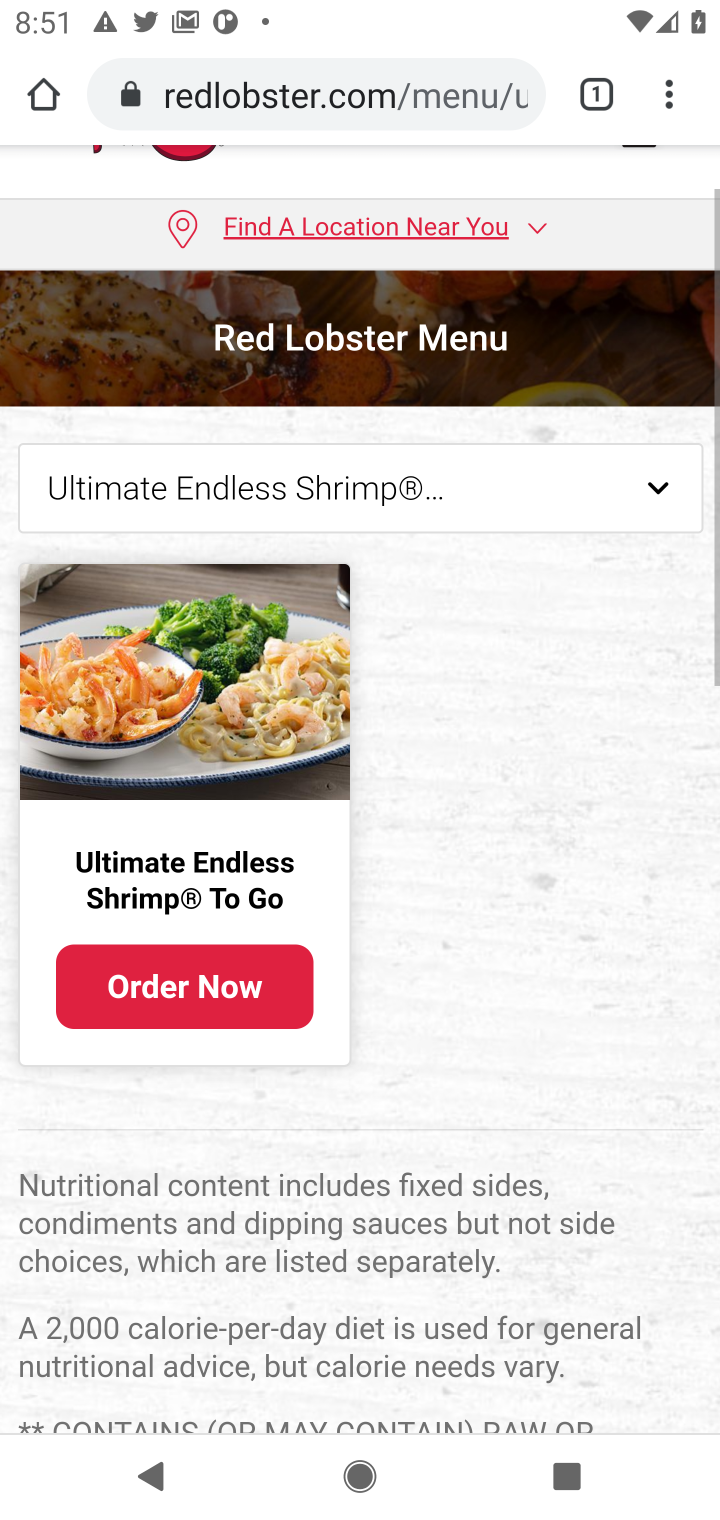
Step 28: drag from (387, 1173) to (437, 527)
Your task to perform on an android device: What's on the menu at Red Lobster? Image 29: 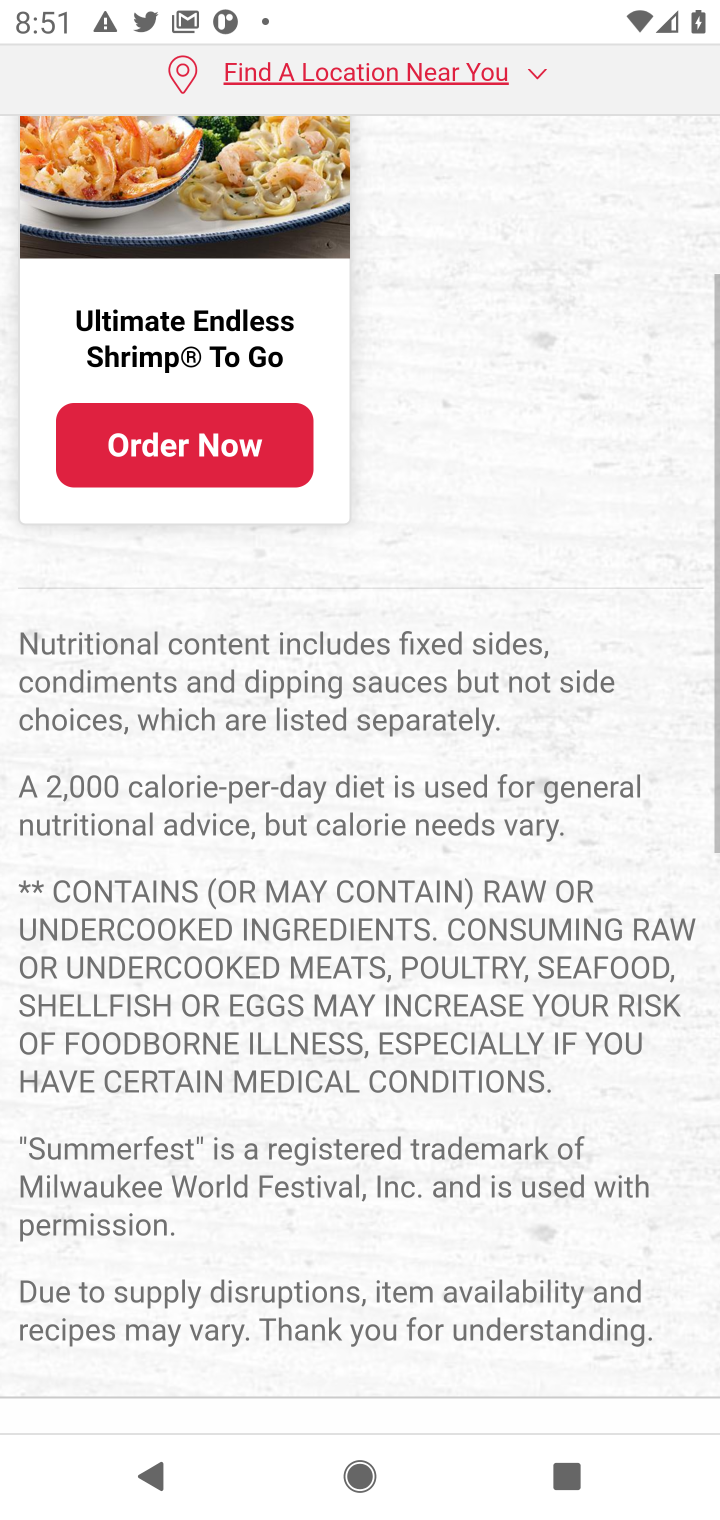
Step 29: drag from (467, 1389) to (501, 642)
Your task to perform on an android device: What's on the menu at Red Lobster? Image 30: 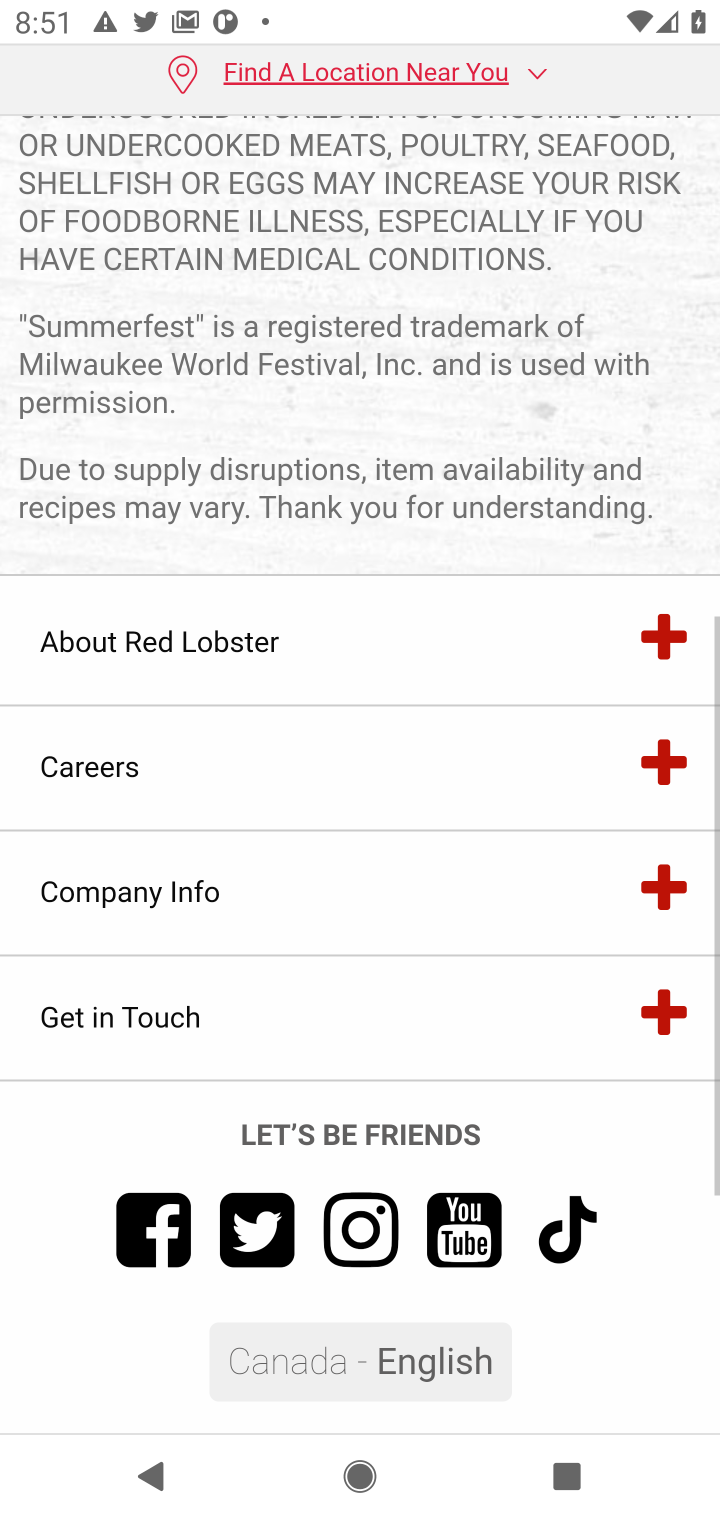
Step 30: drag from (243, 1231) to (330, 594)
Your task to perform on an android device: What's on the menu at Red Lobster? Image 31: 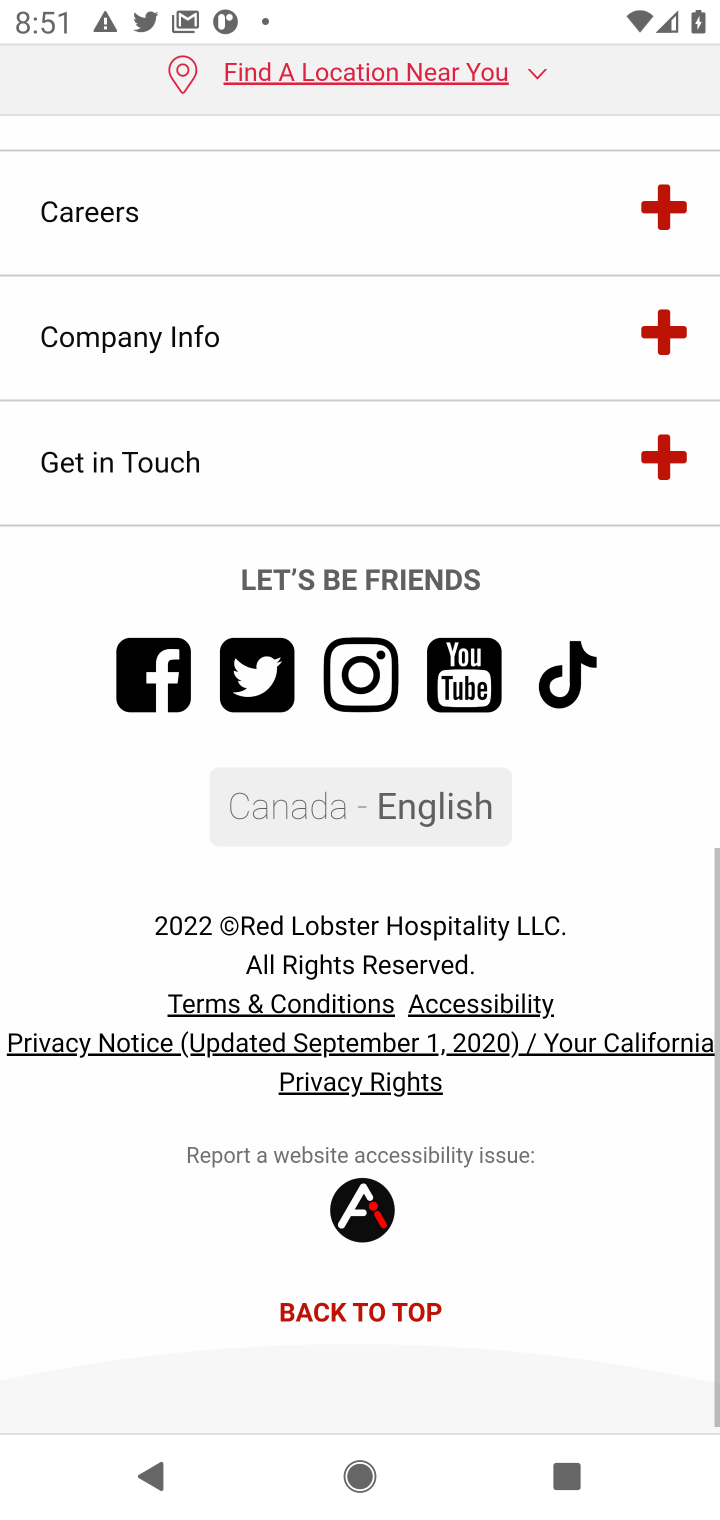
Step 31: drag from (358, 555) to (323, 1446)
Your task to perform on an android device: What's on the menu at Red Lobster? Image 32: 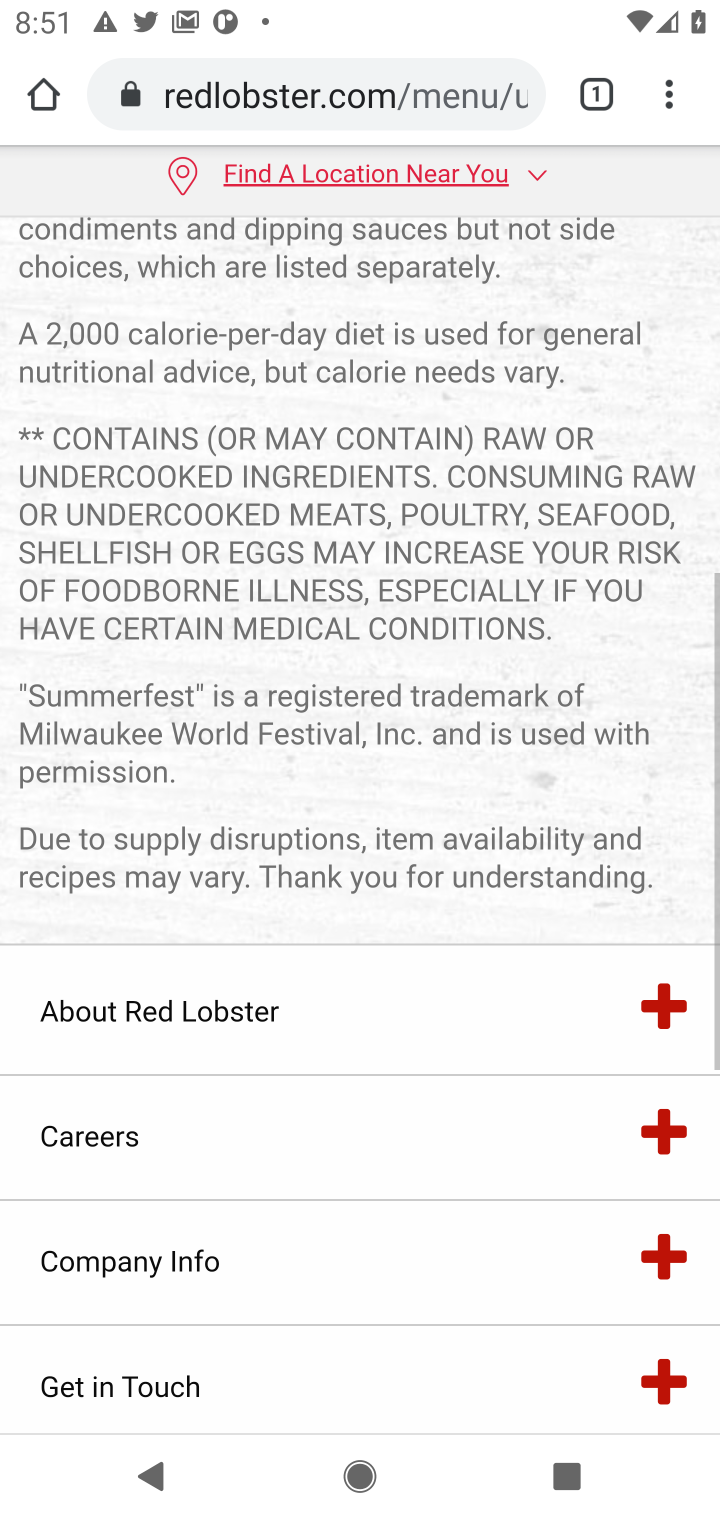
Step 32: drag from (280, 590) to (166, 1499)
Your task to perform on an android device: What's on the menu at Red Lobster? Image 33: 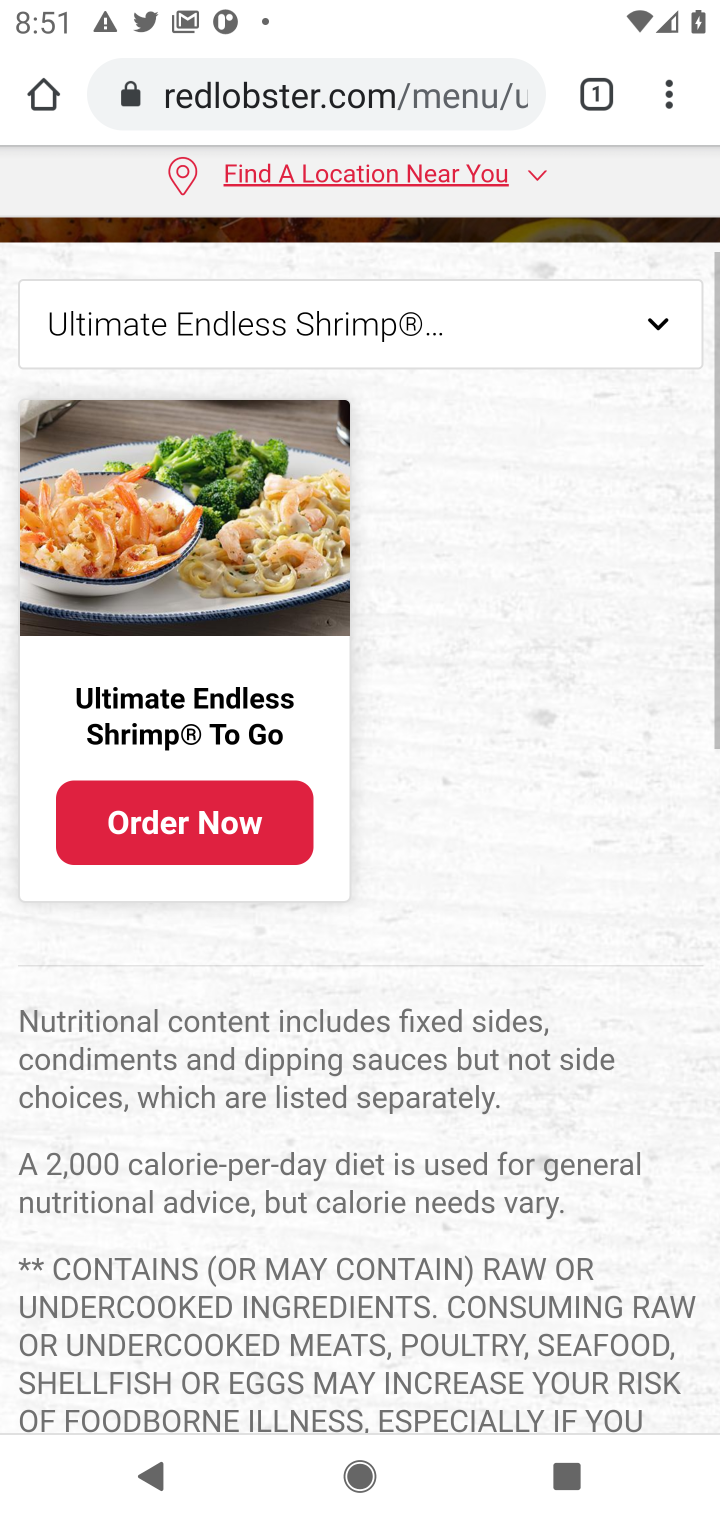
Step 33: drag from (338, 730) to (344, 1499)
Your task to perform on an android device: What's on the menu at Red Lobster? Image 34: 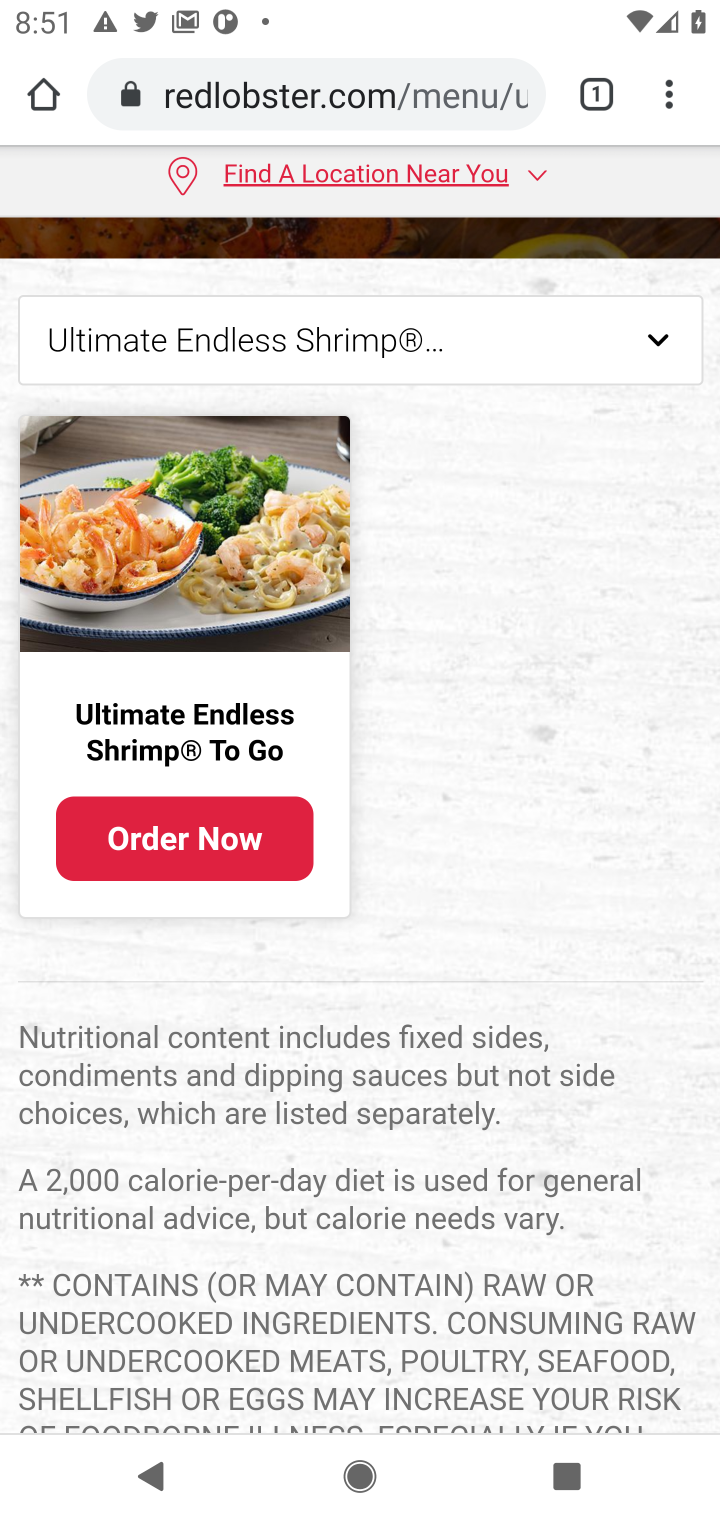
Step 34: drag from (210, 655) to (207, 1467)
Your task to perform on an android device: What's on the menu at Red Lobster? Image 35: 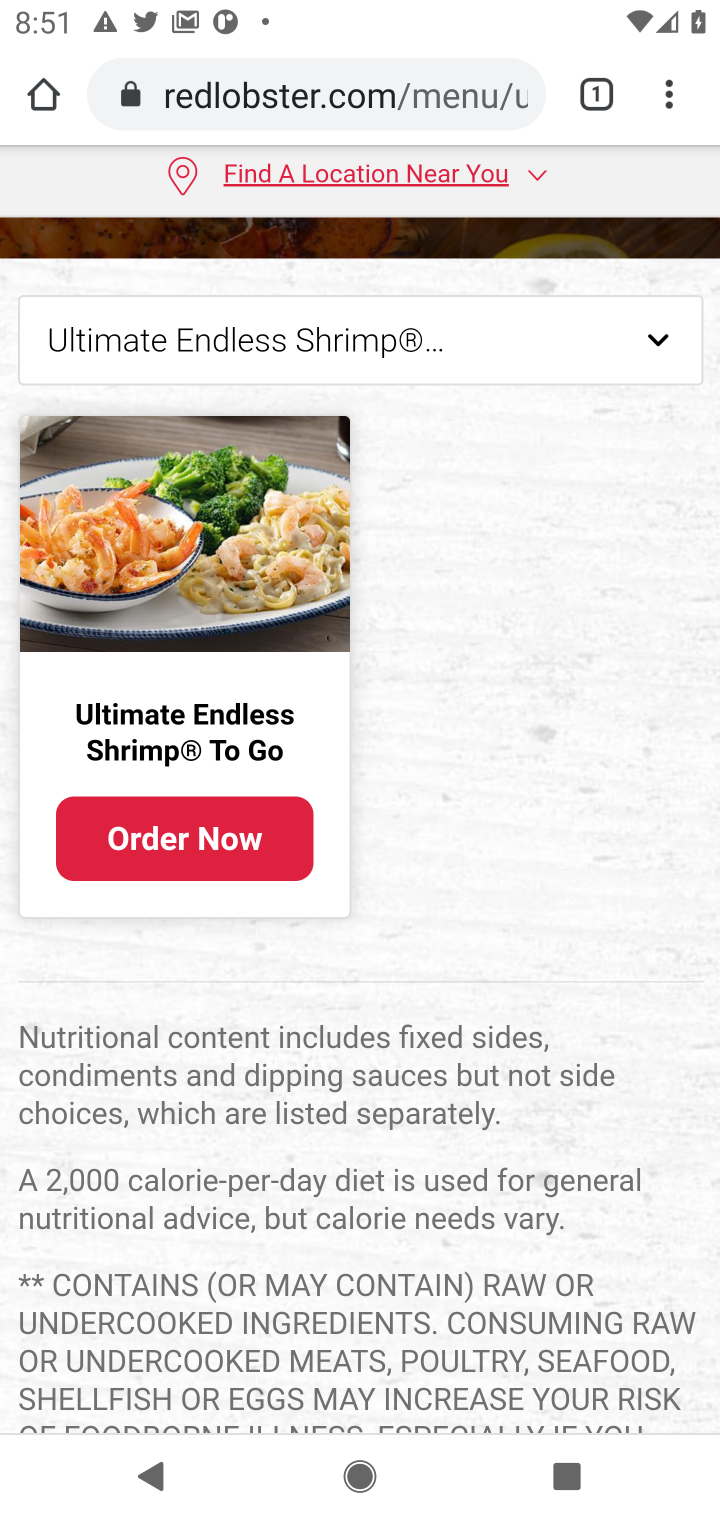
Step 35: drag from (563, 698) to (504, 1331)
Your task to perform on an android device: What's on the menu at Red Lobster? Image 36: 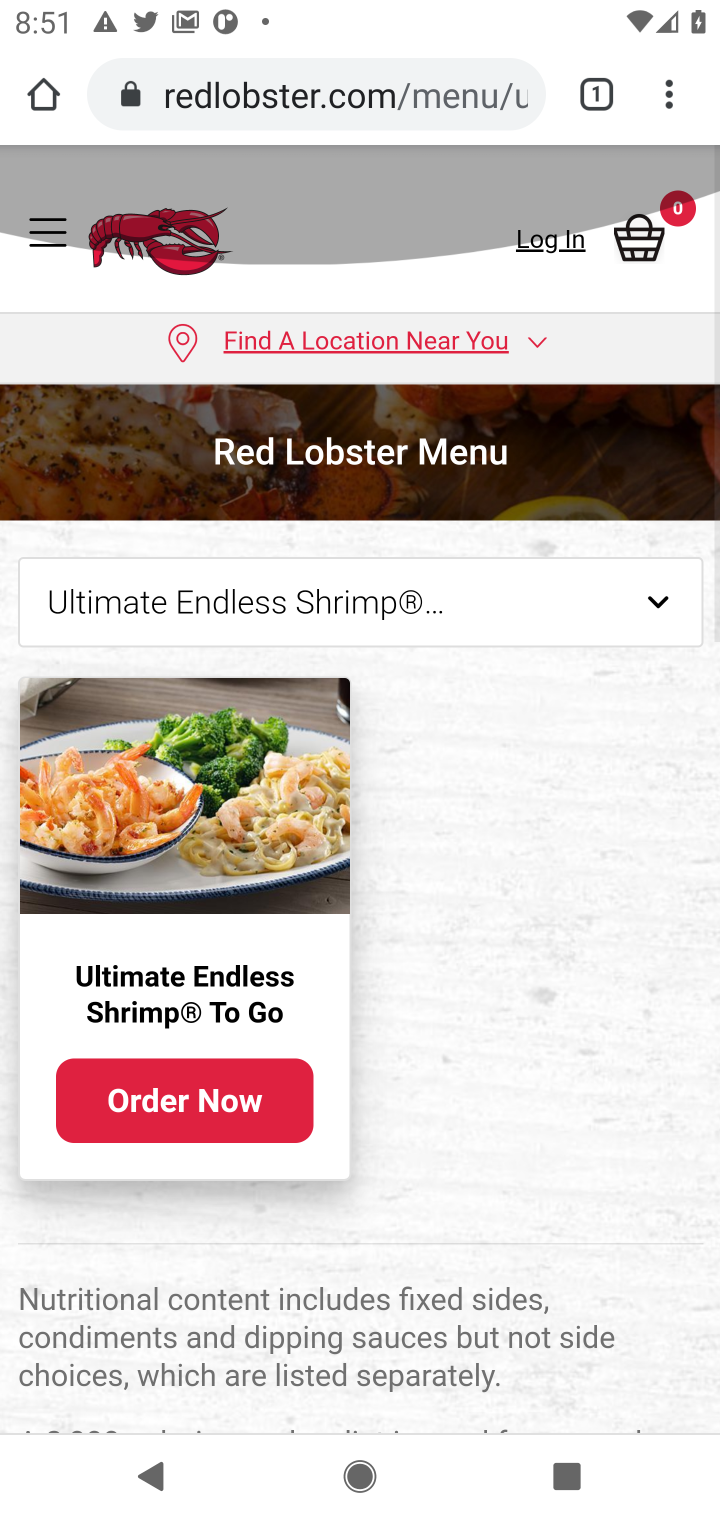
Step 36: drag from (488, 520) to (443, 1281)
Your task to perform on an android device: What's on the menu at Red Lobster? Image 37: 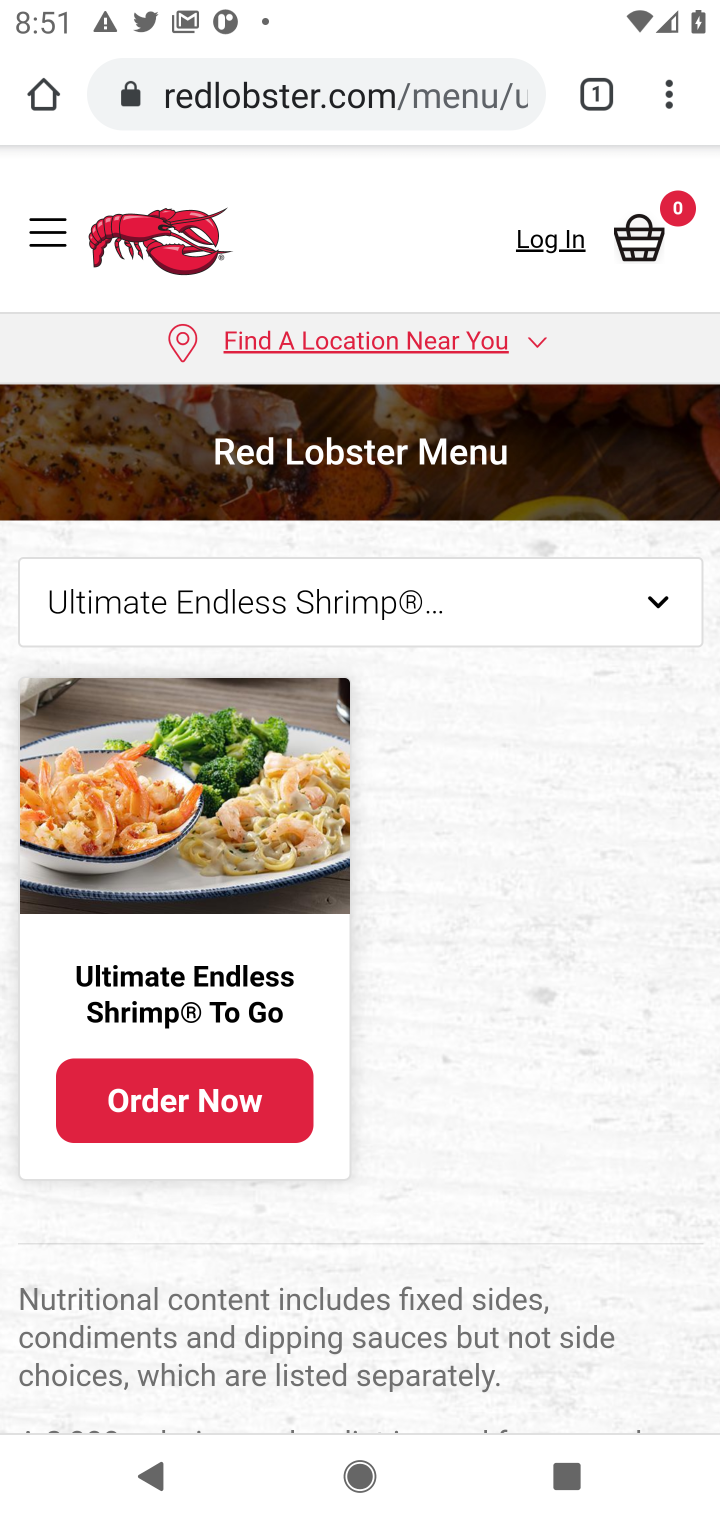
Step 37: press back button
Your task to perform on an android device: What's on the menu at Red Lobster? Image 38: 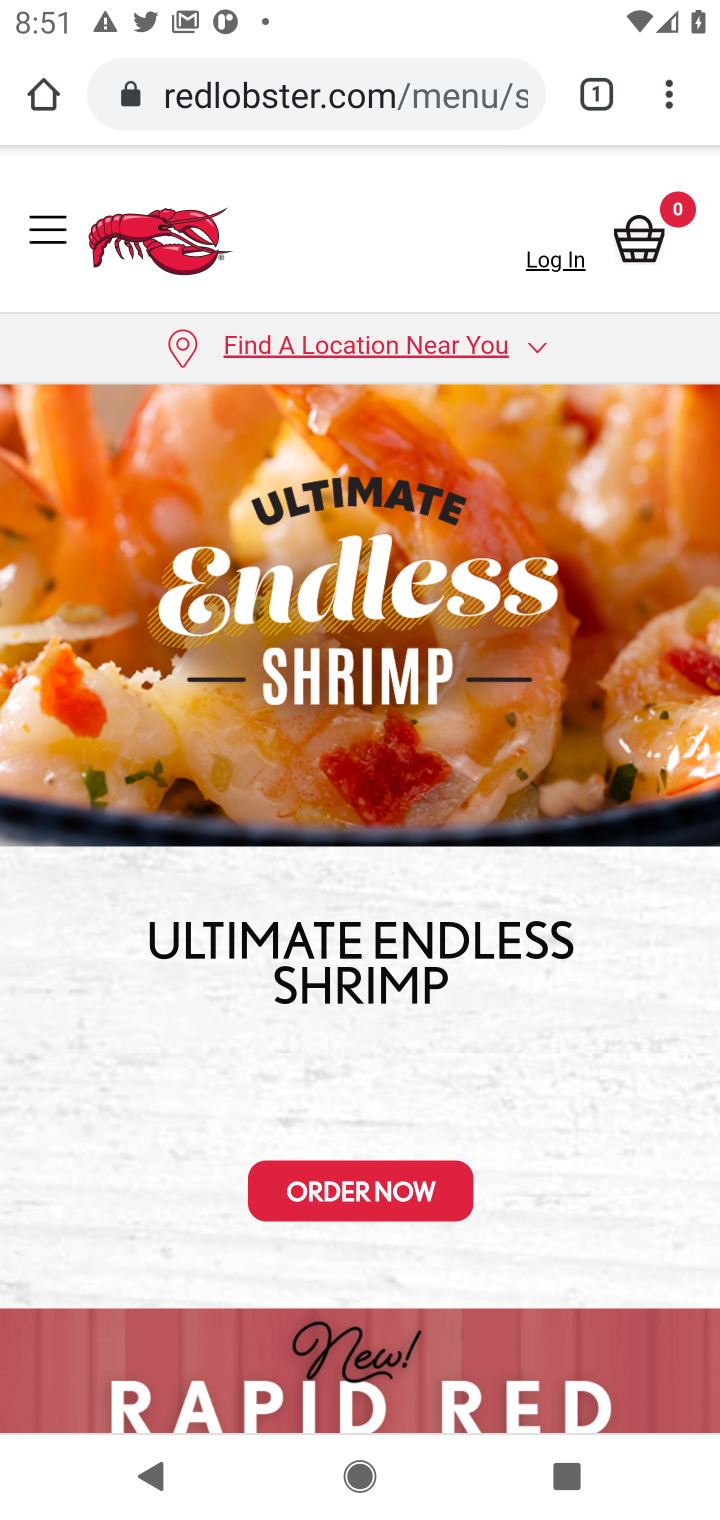
Step 38: press back button
Your task to perform on an android device: What's on the menu at Red Lobster? Image 39: 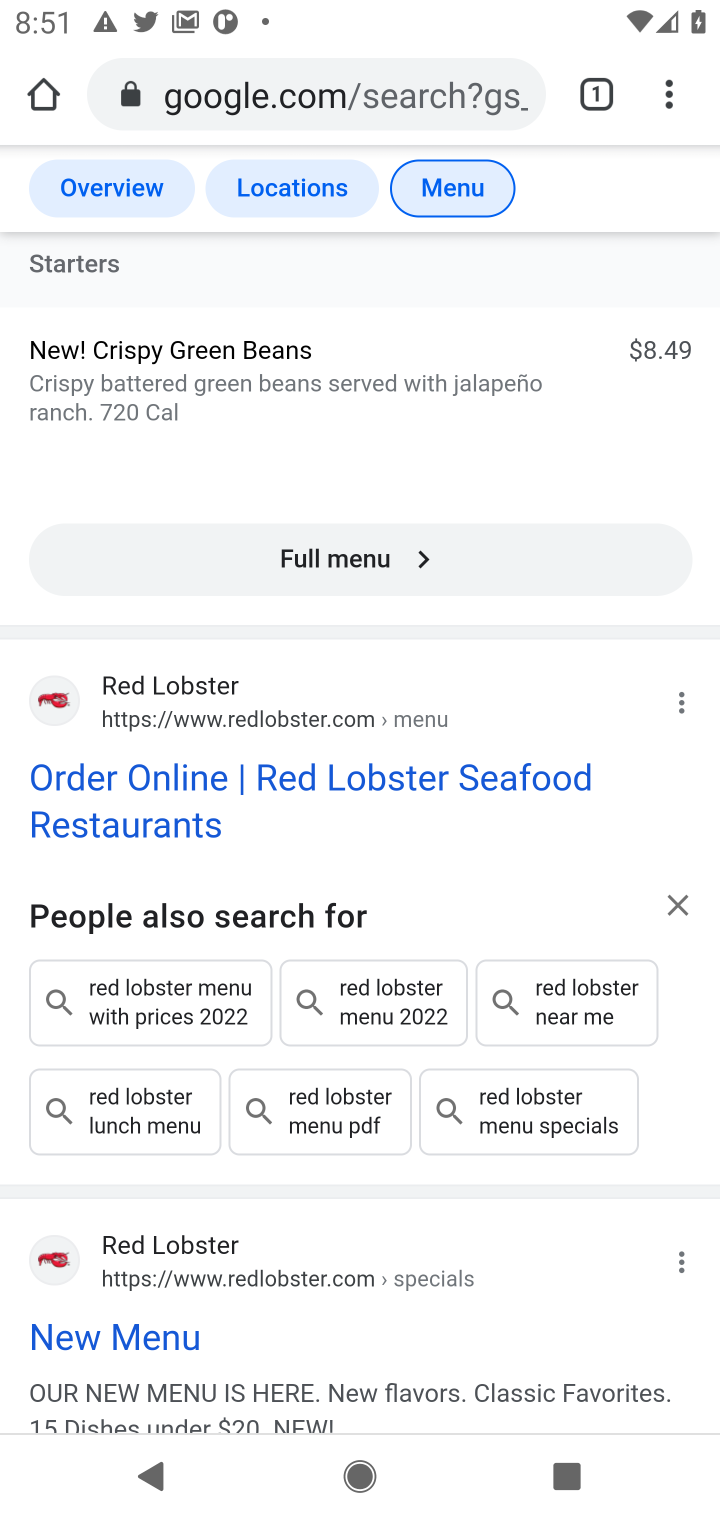
Step 39: click (414, 1019)
Your task to perform on an android device: What's on the menu at Red Lobster? Image 40: 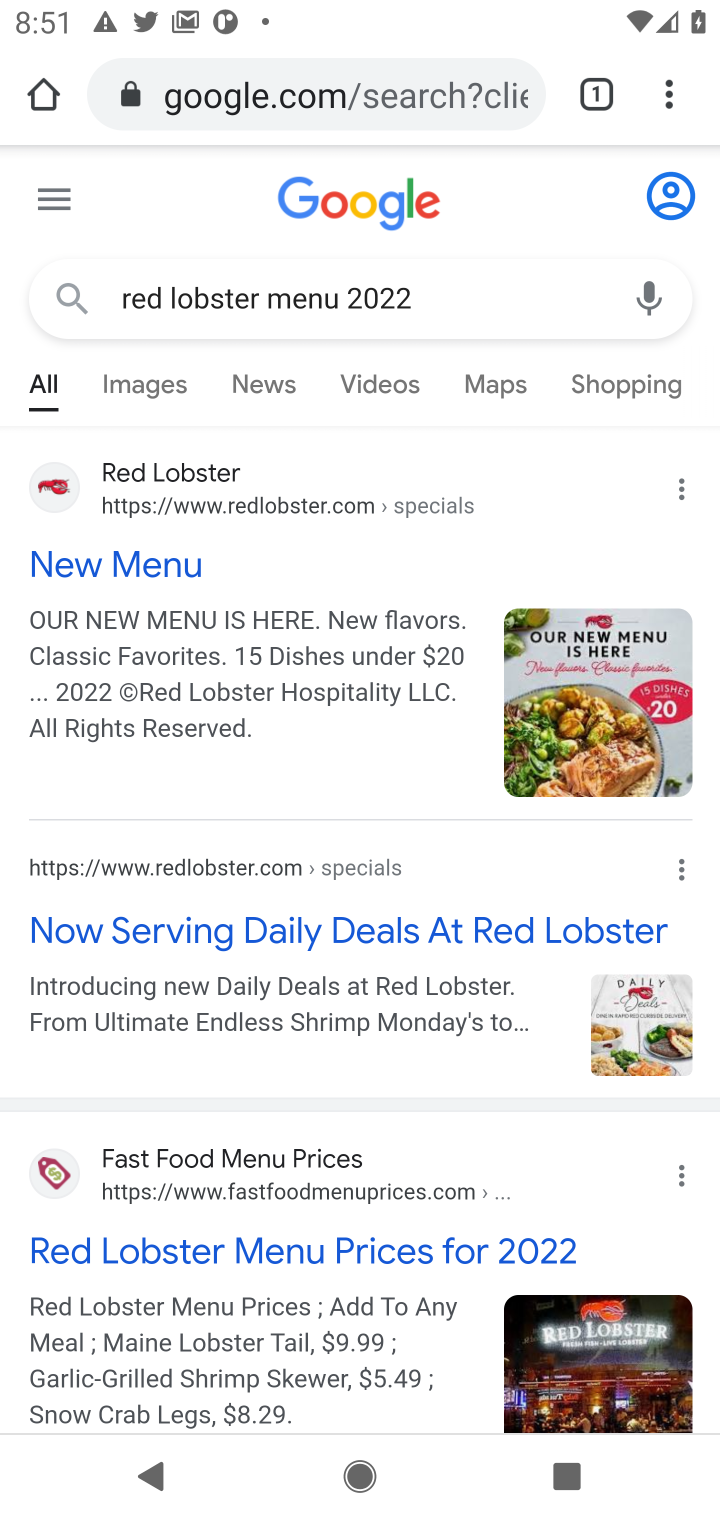
Step 40: click (153, 561)
Your task to perform on an android device: What's on the menu at Red Lobster? Image 41: 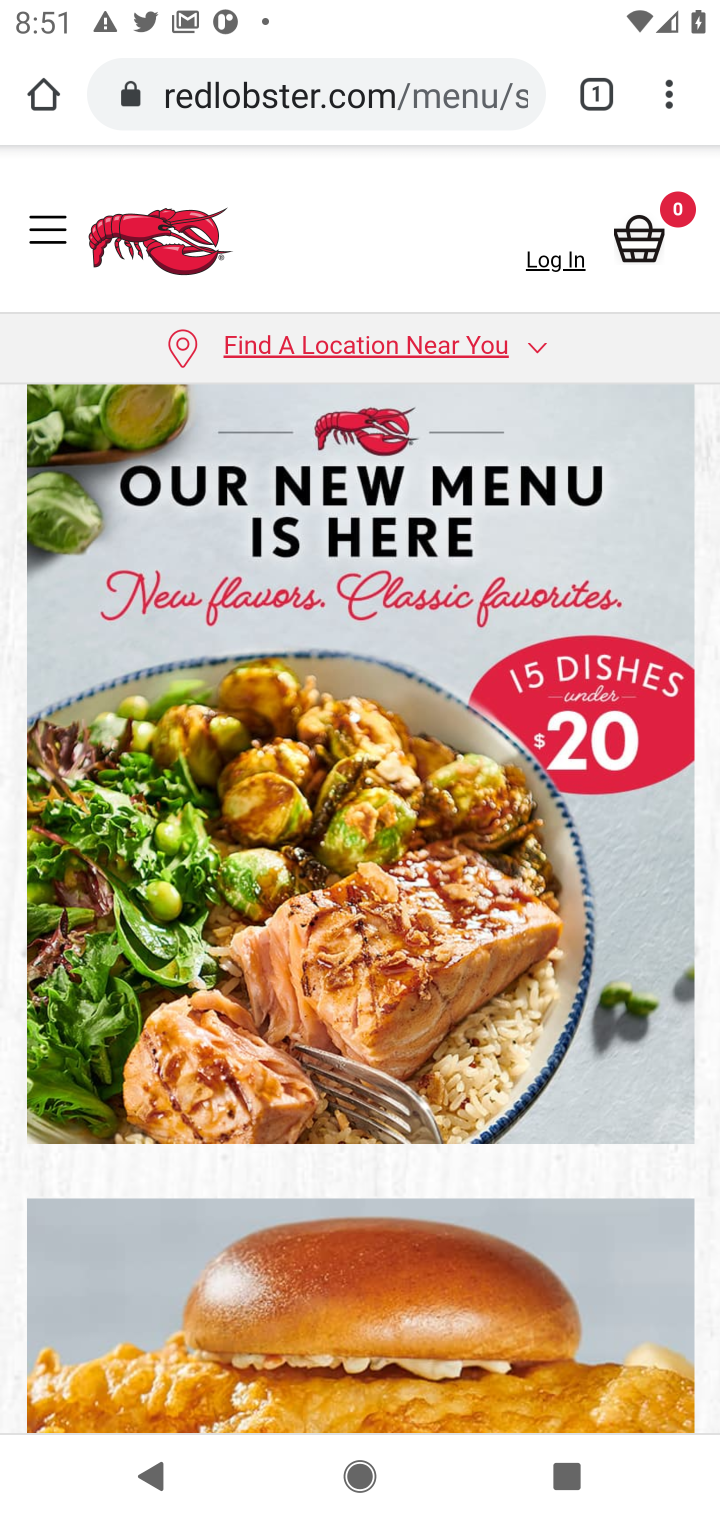
Step 41: task complete